Your task to perform on an android device: Empty the shopping cart on bestbuy. Search for "macbook pro 15 inch" on bestbuy, select the first entry, add it to the cart, then select checkout. Image 0: 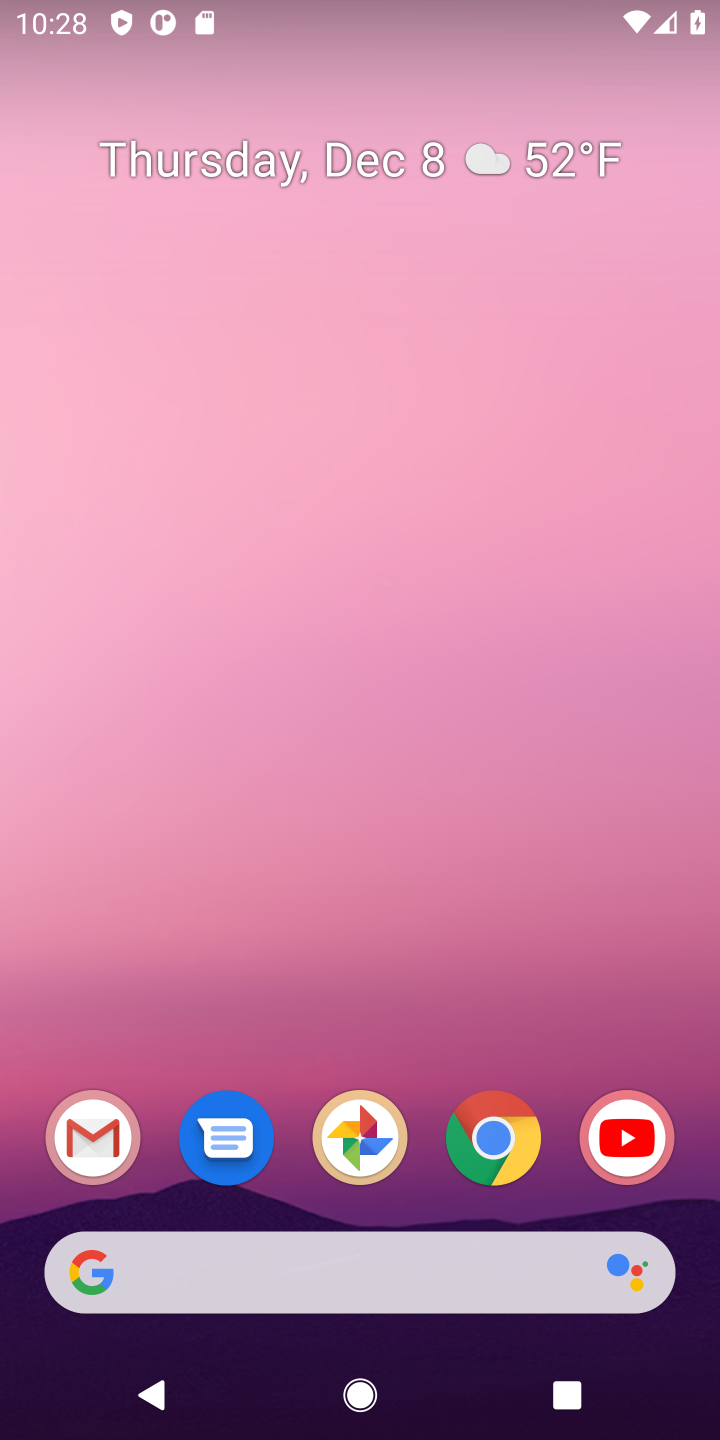
Step 0: click (466, 1139)
Your task to perform on an android device: Empty the shopping cart on bestbuy. Search for "macbook pro 15 inch" on bestbuy, select the first entry, add it to the cart, then select checkout. Image 1: 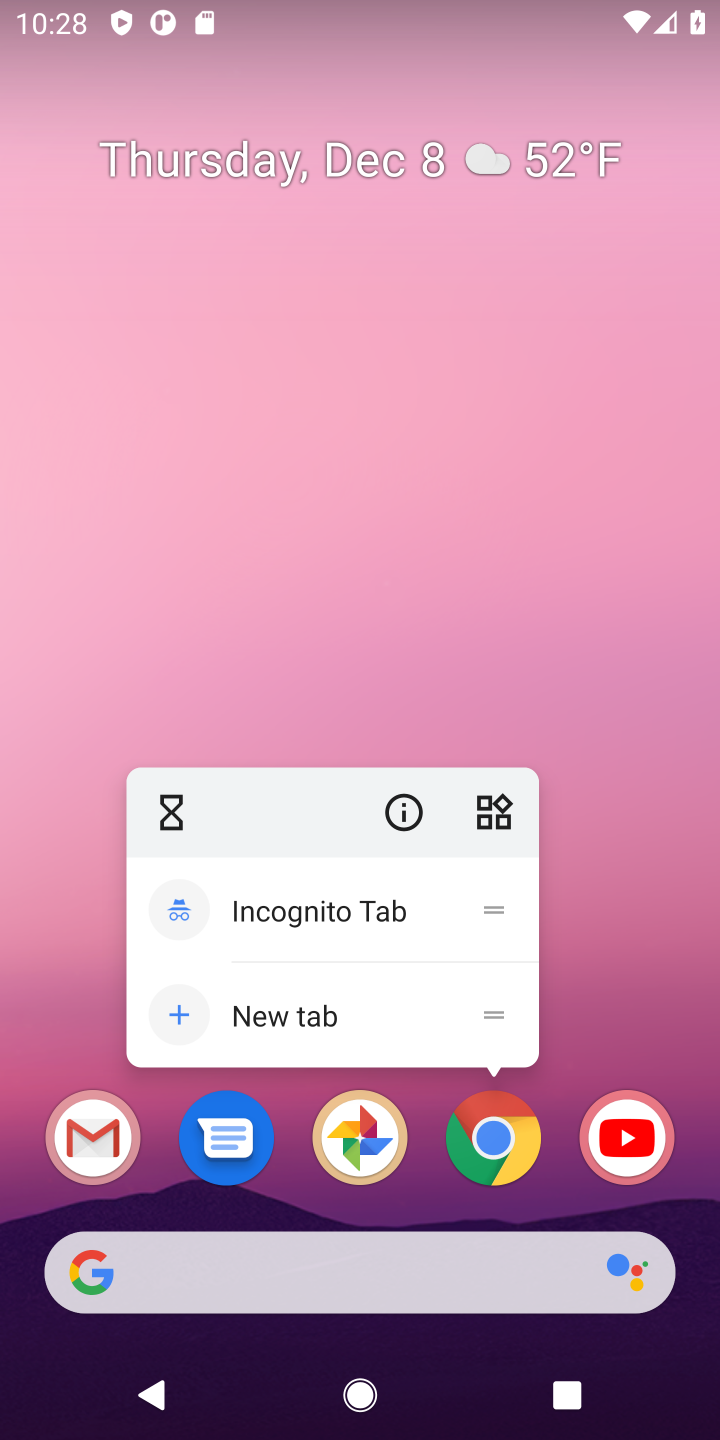
Step 1: click (499, 1159)
Your task to perform on an android device: Empty the shopping cart on bestbuy. Search for "macbook pro 15 inch" on bestbuy, select the first entry, add it to the cart, then select checkout. Image 2: 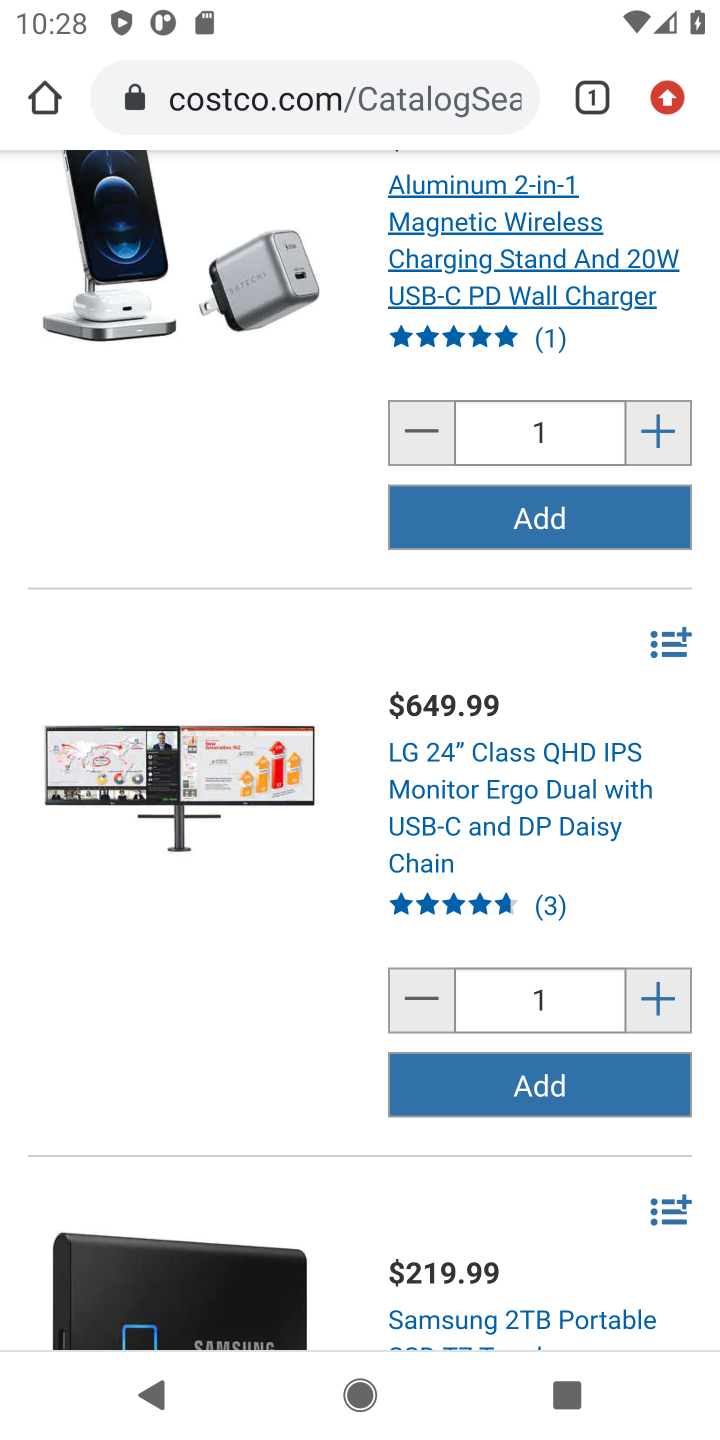
Step 2: click (431, 100)
Your task to perform on an android device: Empty the shopping cart on bestbuy. Search for "macbook pro 15 inch" on bestbuy, select the first entry, add it to the cart, then select checkout. Image 3: 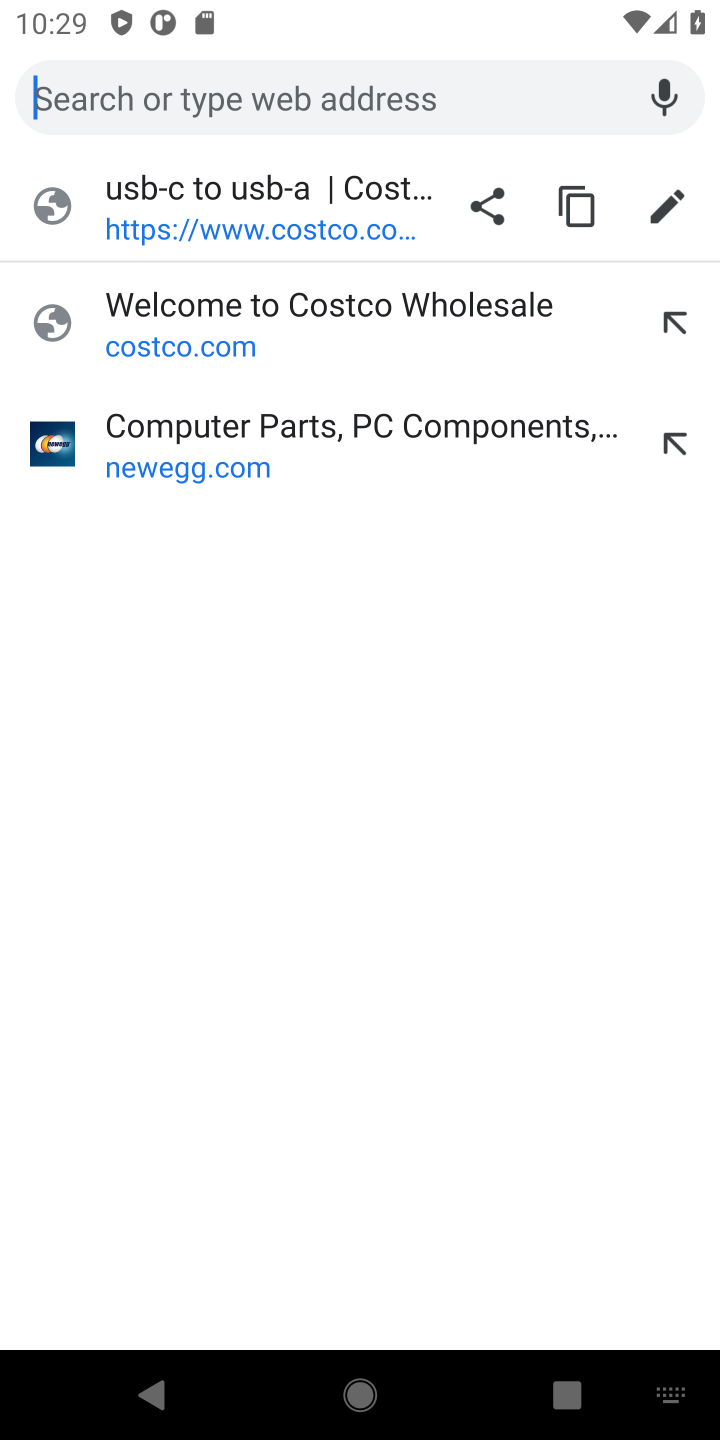
Step 3: type "bestbuy"
Your task to perform on an android device: Empty the shopping cart on bestbuy. Search for "macbook pro 15 inch" on bestbuy, select the first entry, add it to the cart, then select checkout. Image 4: 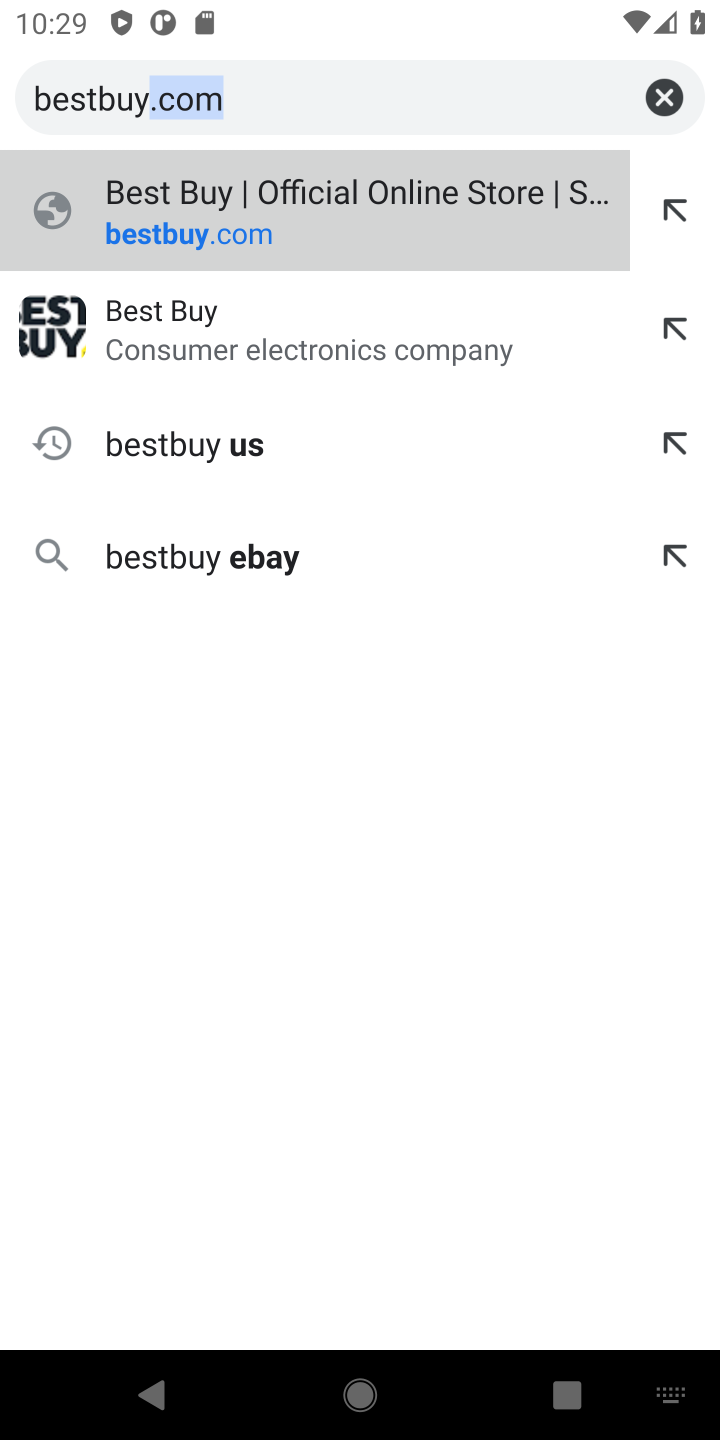
Step 4: click (480, 92)
Your task to perform on an android device: Empty the shopping cart on bestbuy. Search for "macbook pro 15 inch" on bestbuy, select the first entry, add it to the cart, then select checkout. Image 5: 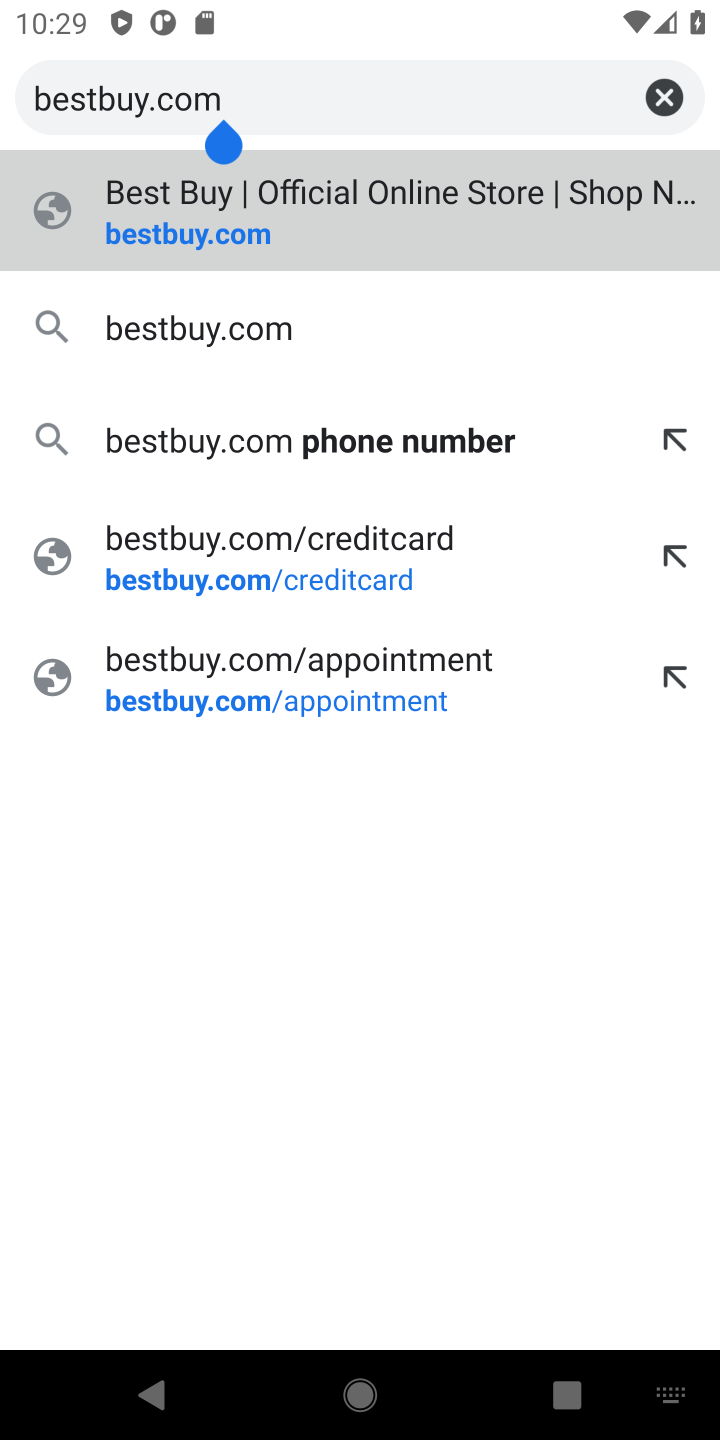
Step 5: click (241, 332)
Your task to perform on an android device: Empty the shopping cart on bestbuy. Search for "macbook pro 15 inch" on bestbuy, select the first entry, add it to the cart, then select checkout. Image 6: 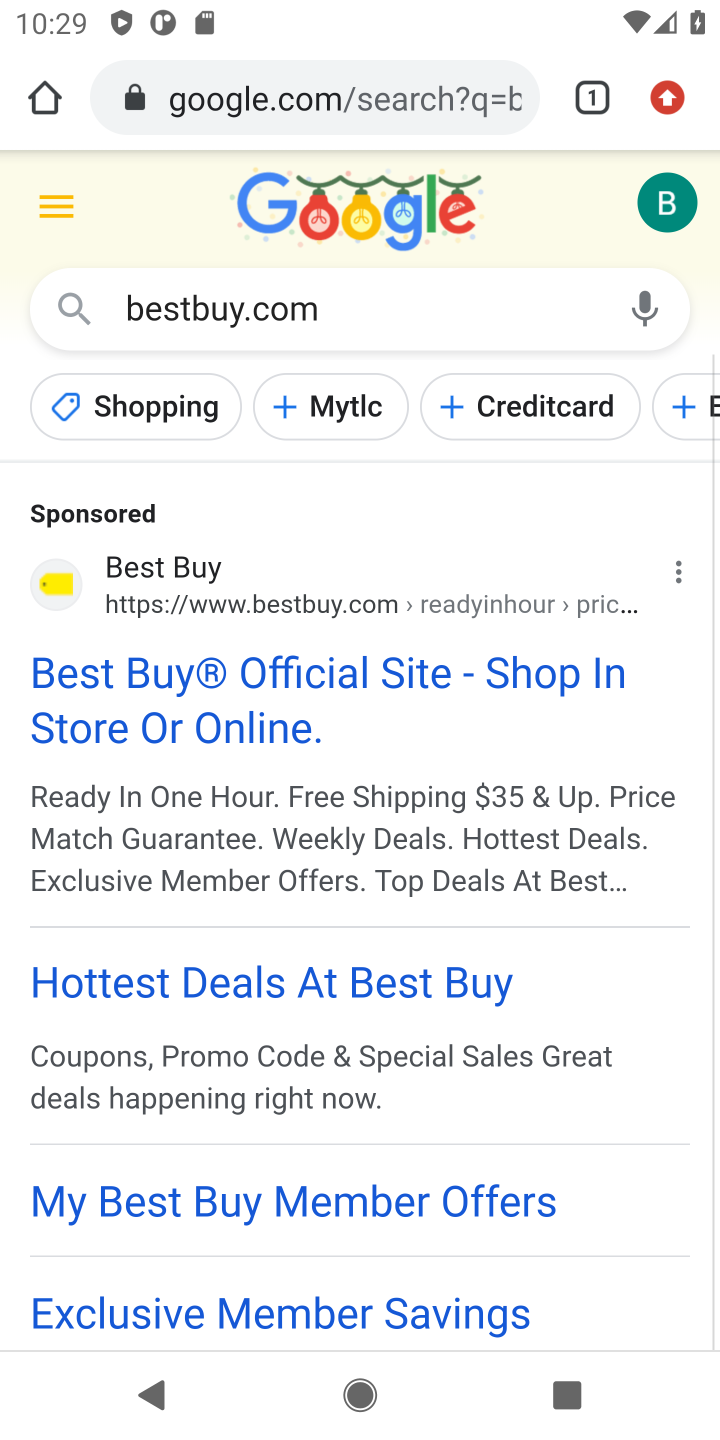
Step 6: drag from (519, 724) to (484, 367)
Your task to perform on an android device: Empty the shopping cart on bestbuy. Search for "macbook pro 15 inch" on bestbuy, select the first entry, add it to the cart, then select checkout. Image 7: 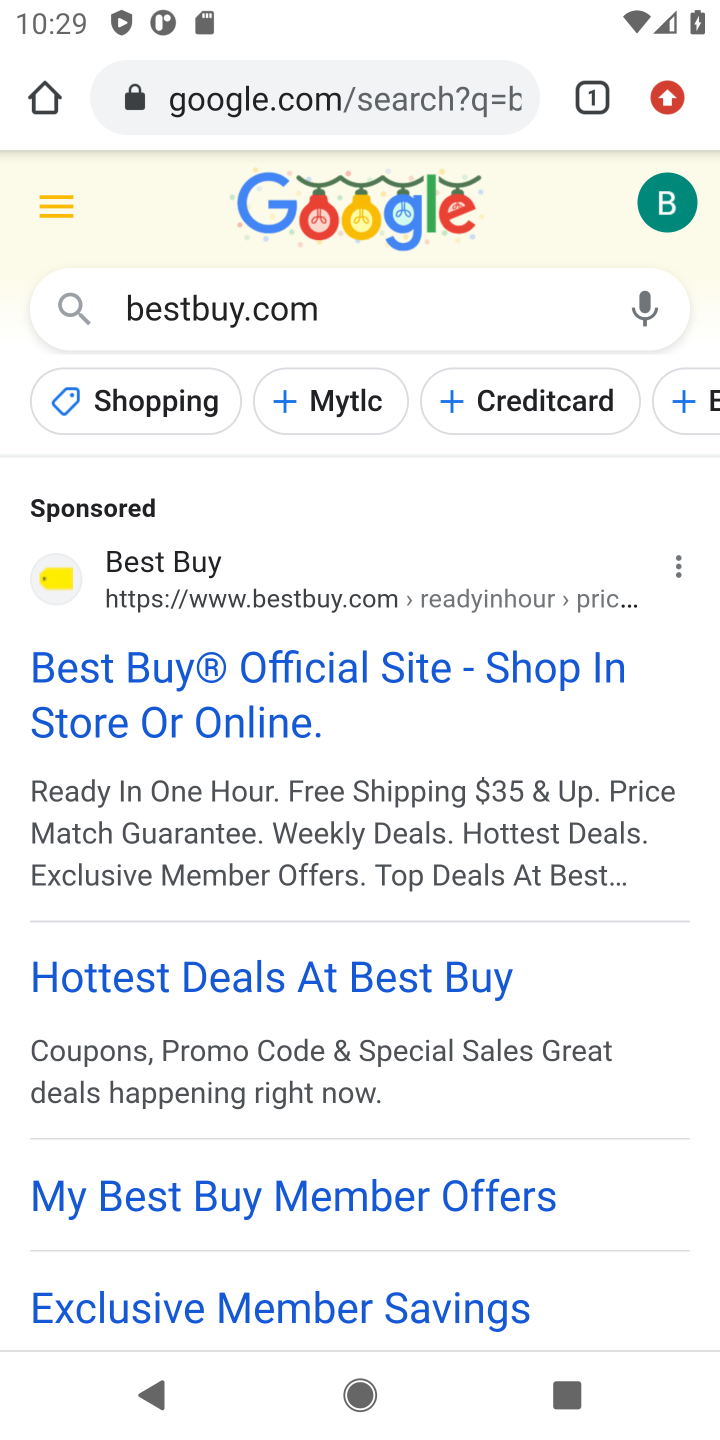
Step 7: drag from (538, 924) to (515, 413)
Your task to perform on an android device: Empty the shopping cart on bestbuy. Search for "macbook pro 15 inch" on bestbuy, select the first entry, add it to the cart, then select checkout. Image 8: 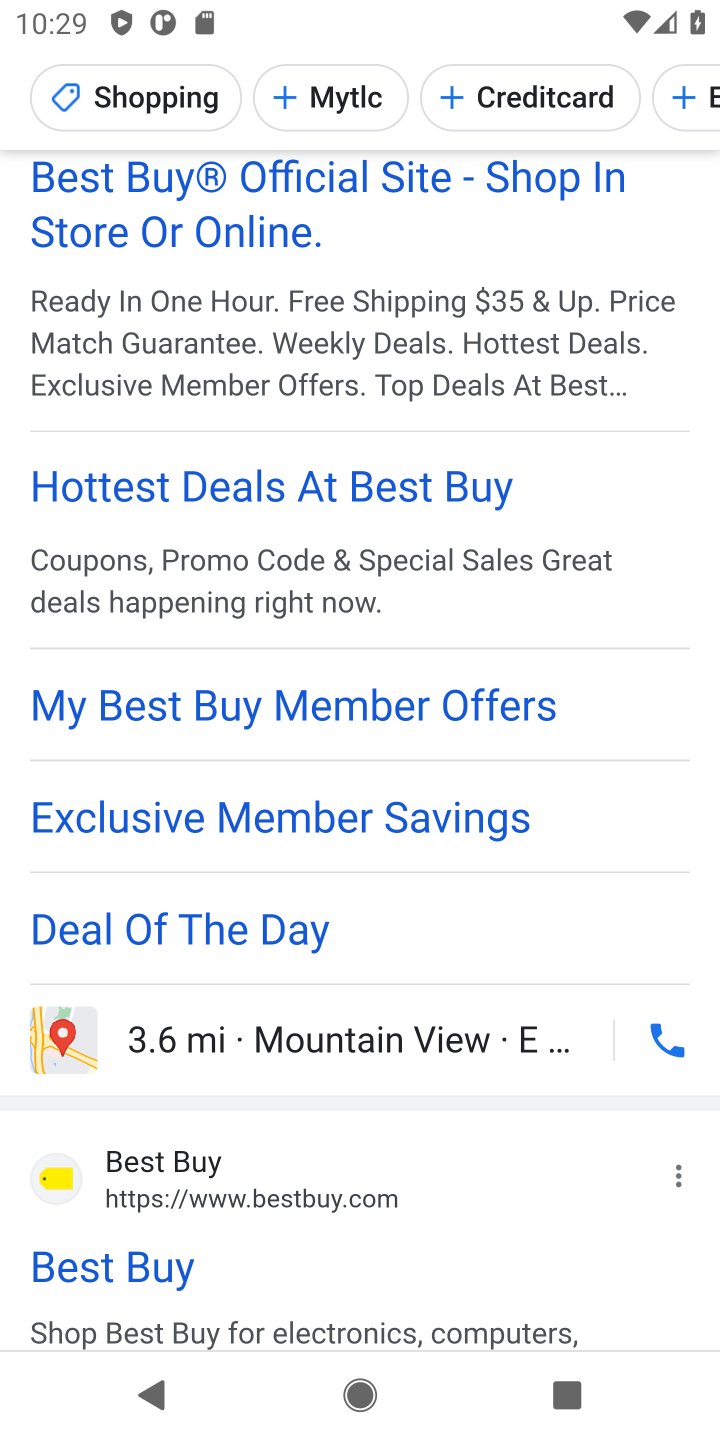
Step 8: click (345, 1191)
Your task to perform on an android device: Empty the shopping cart on bestbuy. Search for "macbook pro 15 inch" on bestbuy, select the first entry, add it to the cart, then select checkout. Image 9: 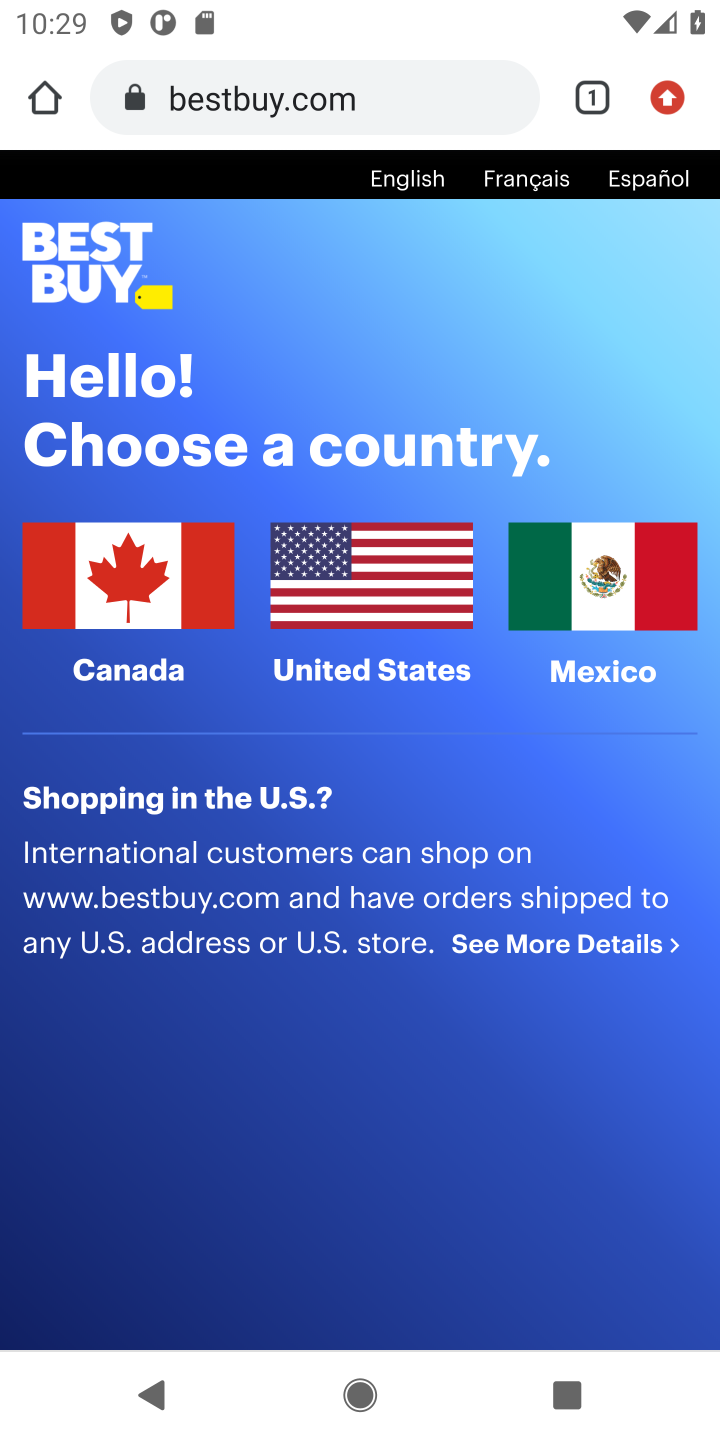
Step 9: click (359, 580)
Your task to perform on an android device: Empty the shopping cart on bestbuy. Search for "macbook pro 15 inch" on bestbuy, select the first entry, add it to the cart, then select checkout. Image 10: 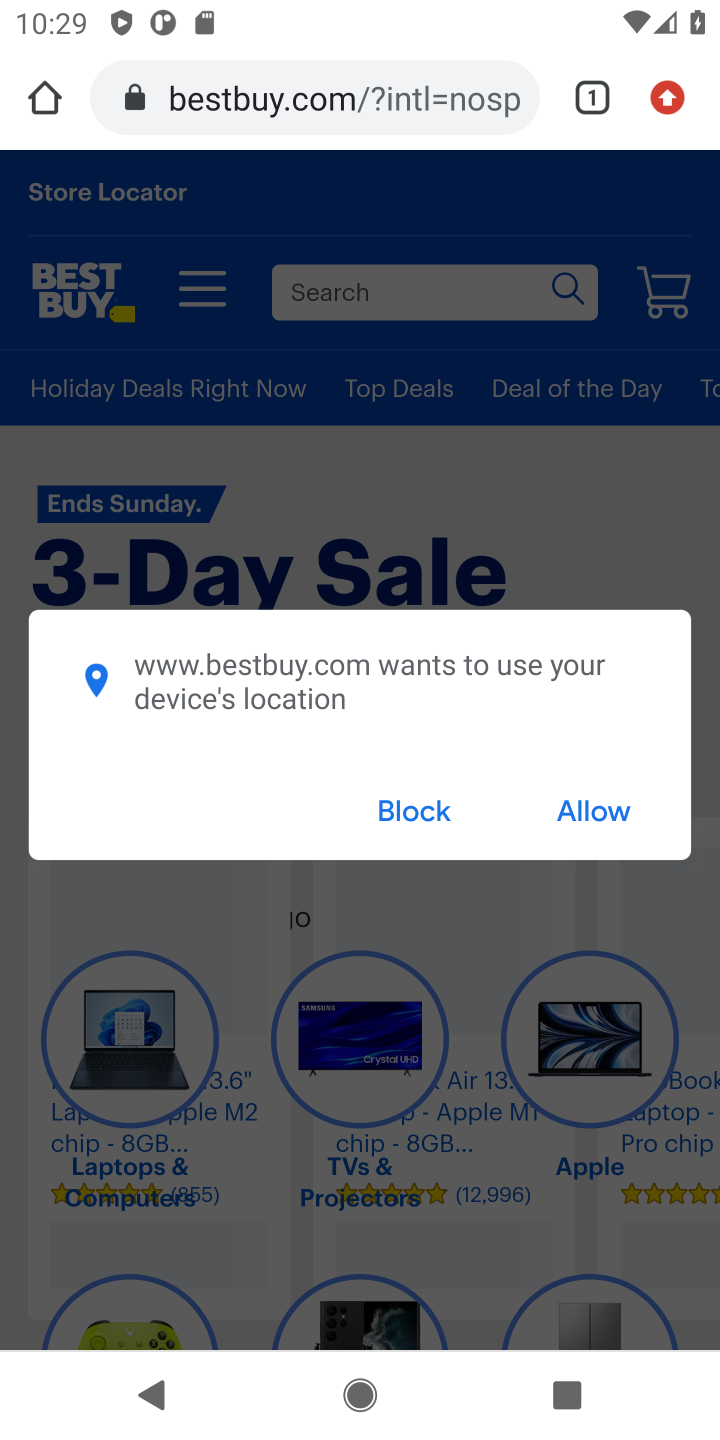
Step 10: click (417, 800)
Your task to perform on an android device: Empty the shopping cart on bestbuy. Search for "macbook pro 15 inch" on bestbuy, select the first entry, add it to the cart, then select checkout. Image 11: 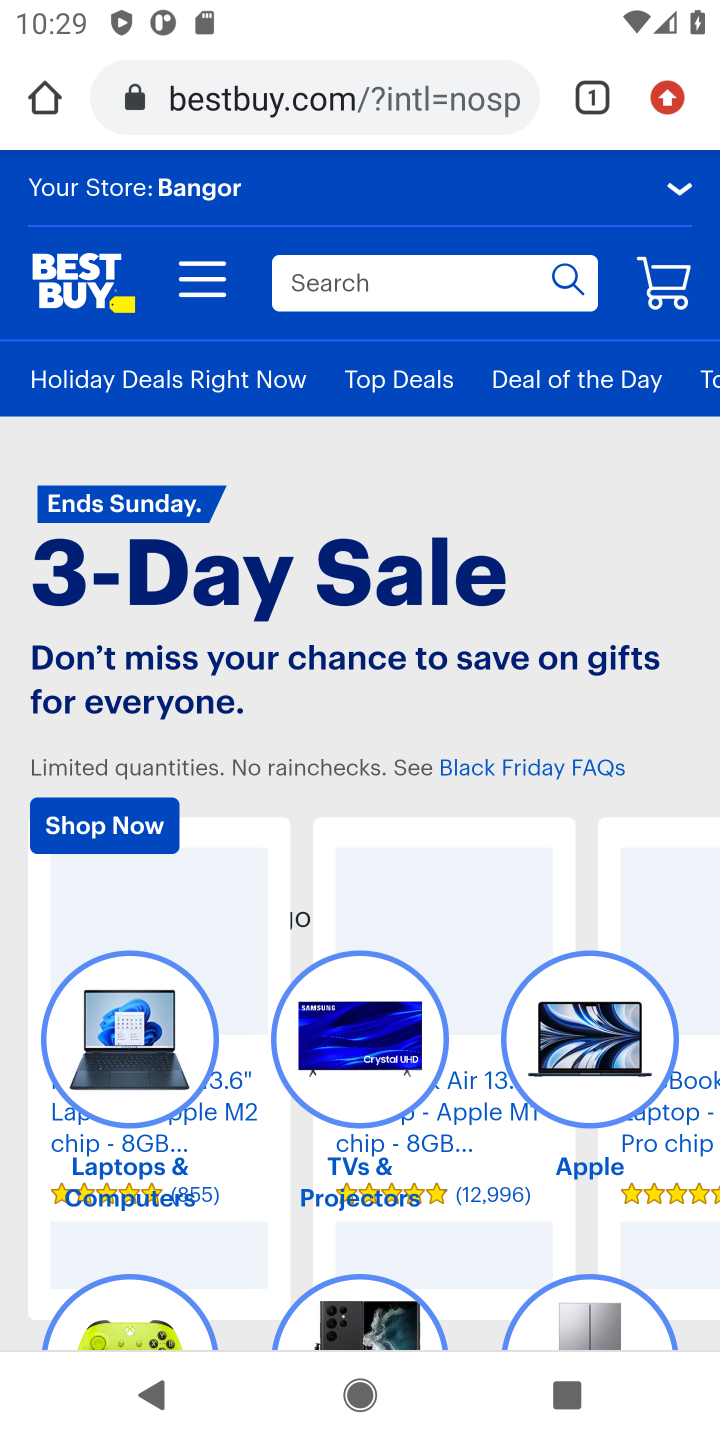
Step 11: click (669, 272)
Your task to perform on an android device: Empty the shopping cart on bestbuy. Search for "macbook pro 15 inch" on bestbuy, select the first entry, add it to the cart, then select checkout. Image 12: 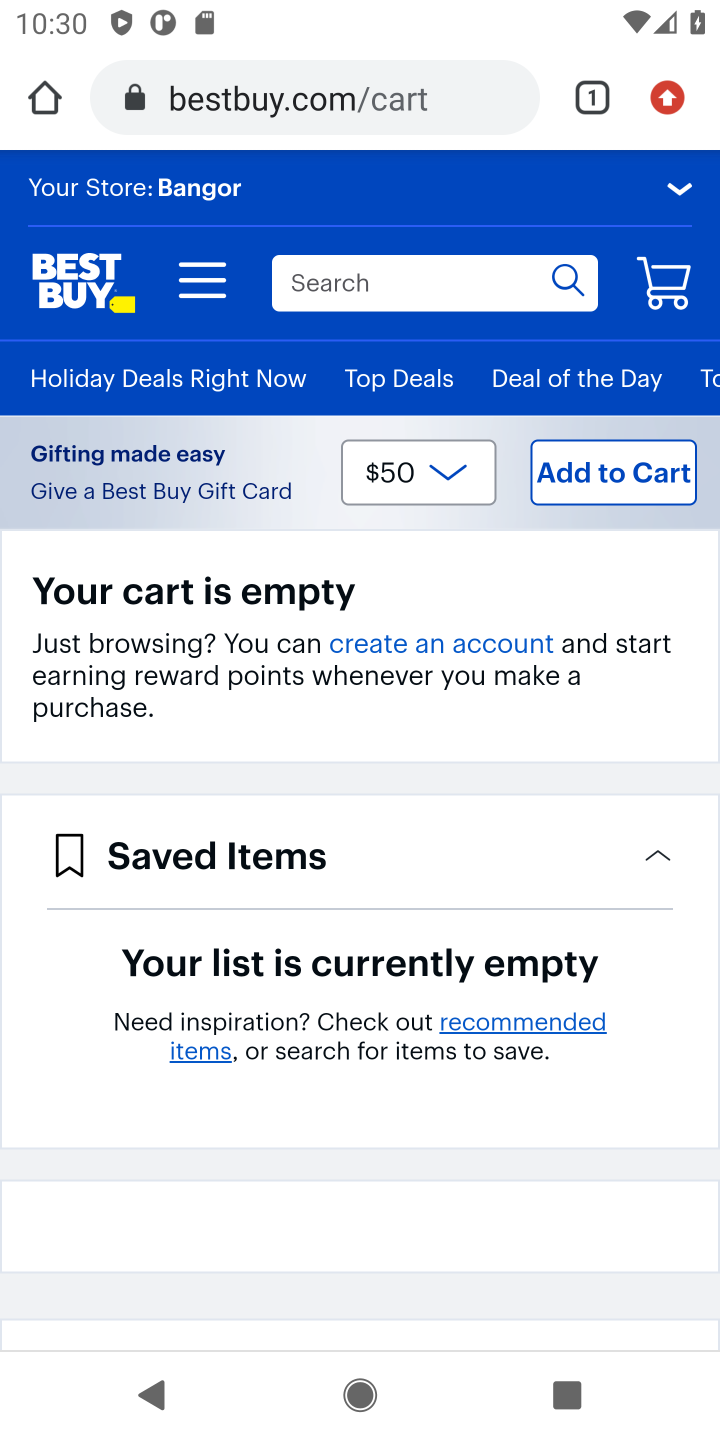
Step 12: click (514, 289)
Your task to perform on an android device: Empty the shopping cart on bestbuy. Search for "macbook pro 15 inch" on bestbuy, select the first entry, add it to the cart, then select checkout. Image 13: 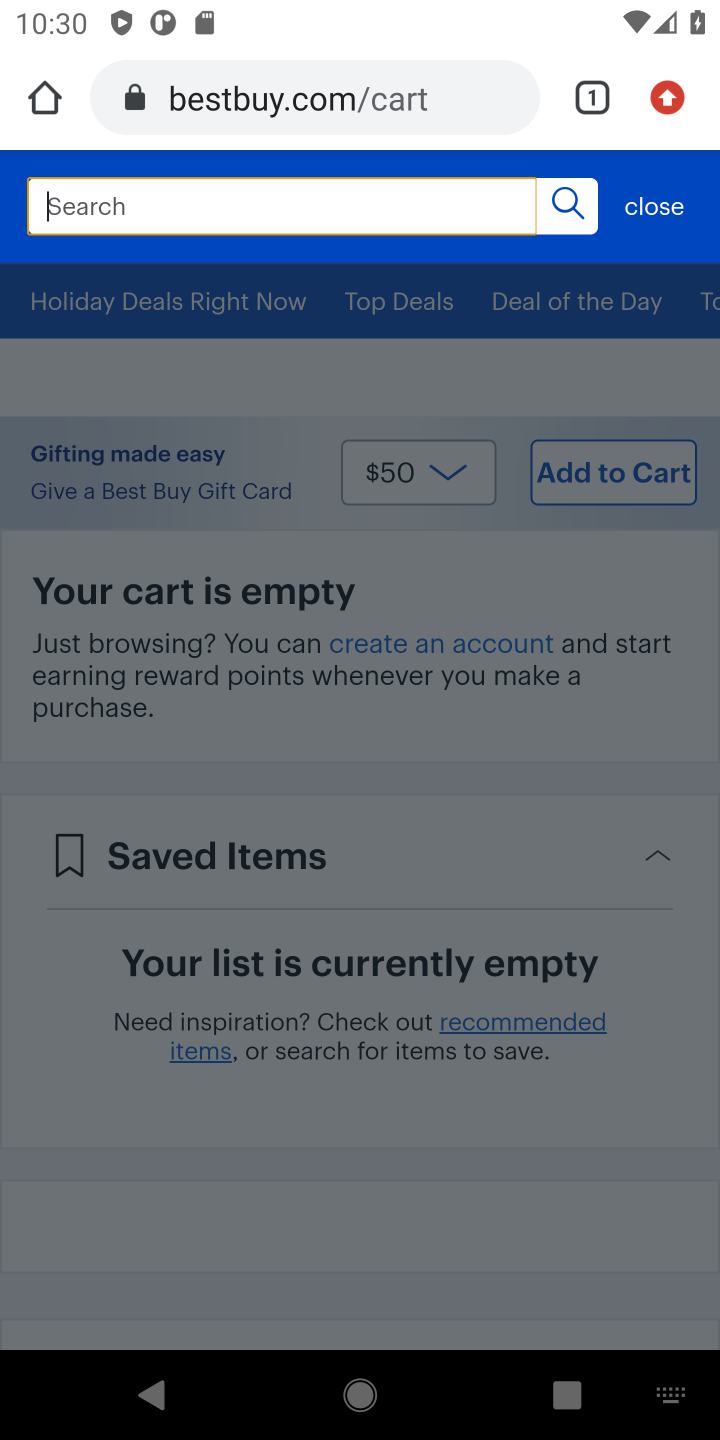
Step 13: type "macbook pro 15 inch"
Your task to perform on an android device: Empty the shopping cart on bestbuy. Search for "macbook pro 15 inch" on bestbuy, select the first entry, add it to the cart, then select checkout. Image 14: 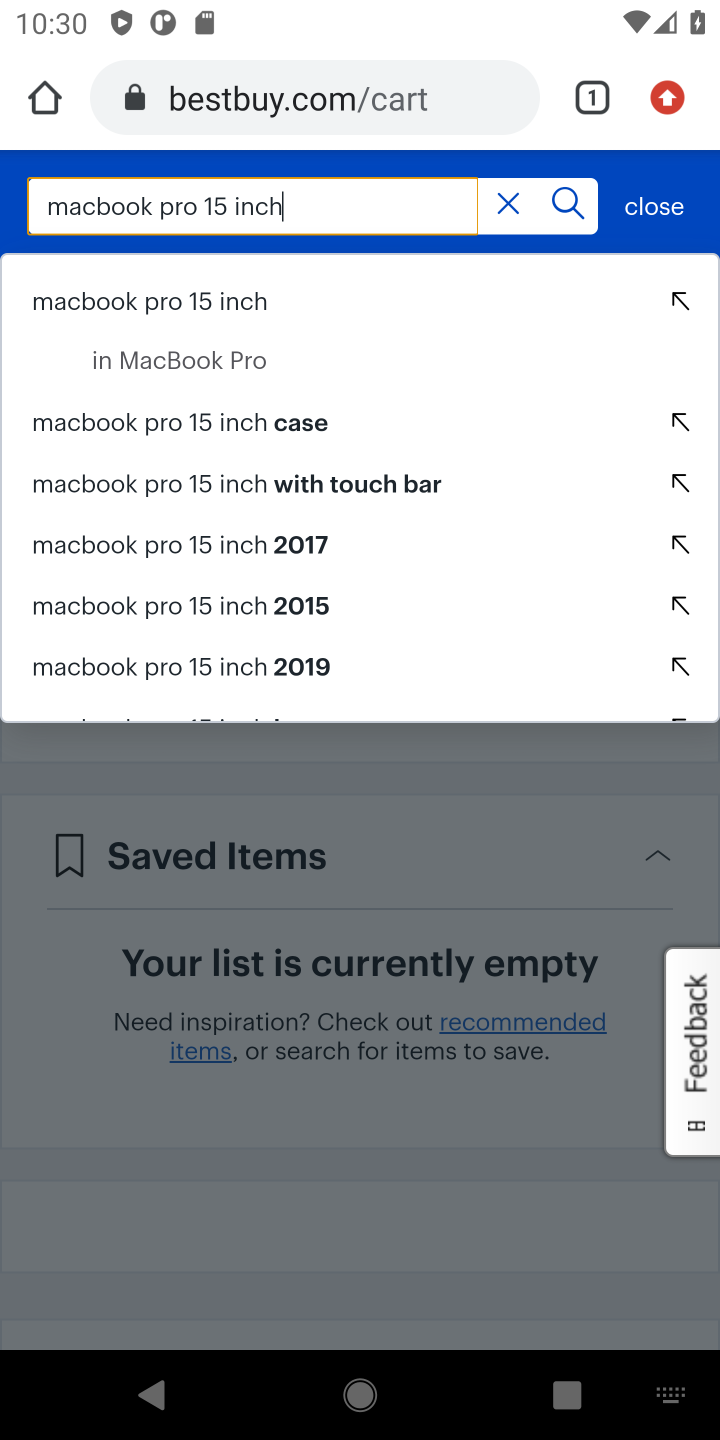
Step 14: click (216, 293)
Your task to perform on an android device: Empty the shopping cart on bestbuy. Search for "macbook pro 15 inch" on bestbuy, select the first entry, add it to the cart, then select checkout. Image 15: 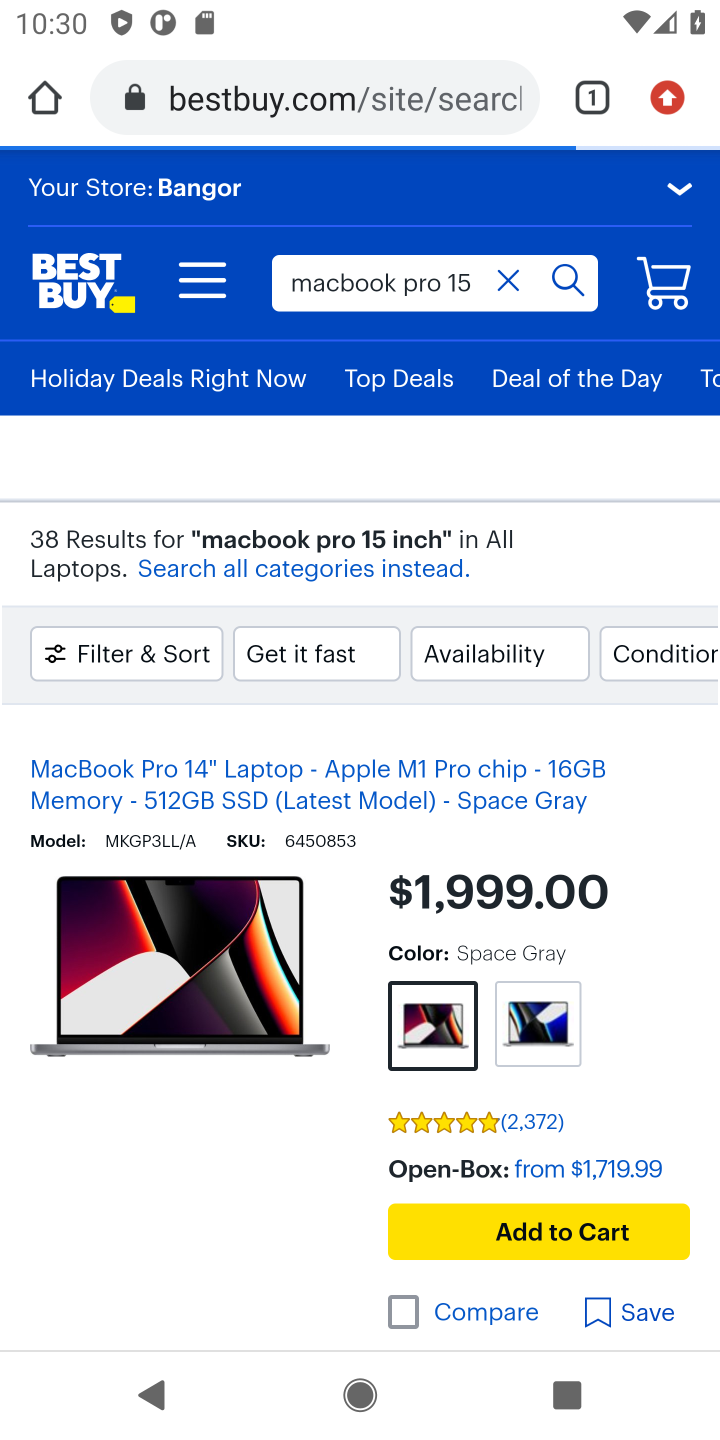
Step 15: drag from (264, 1104) to (194, 266)
Your task to perform on an android device: Empty the shopping cart on bestbuy. Search for "macbook pro 15 inch" on bestbuy, select the first entry, add it to the cart, then select checkout. Image 16: 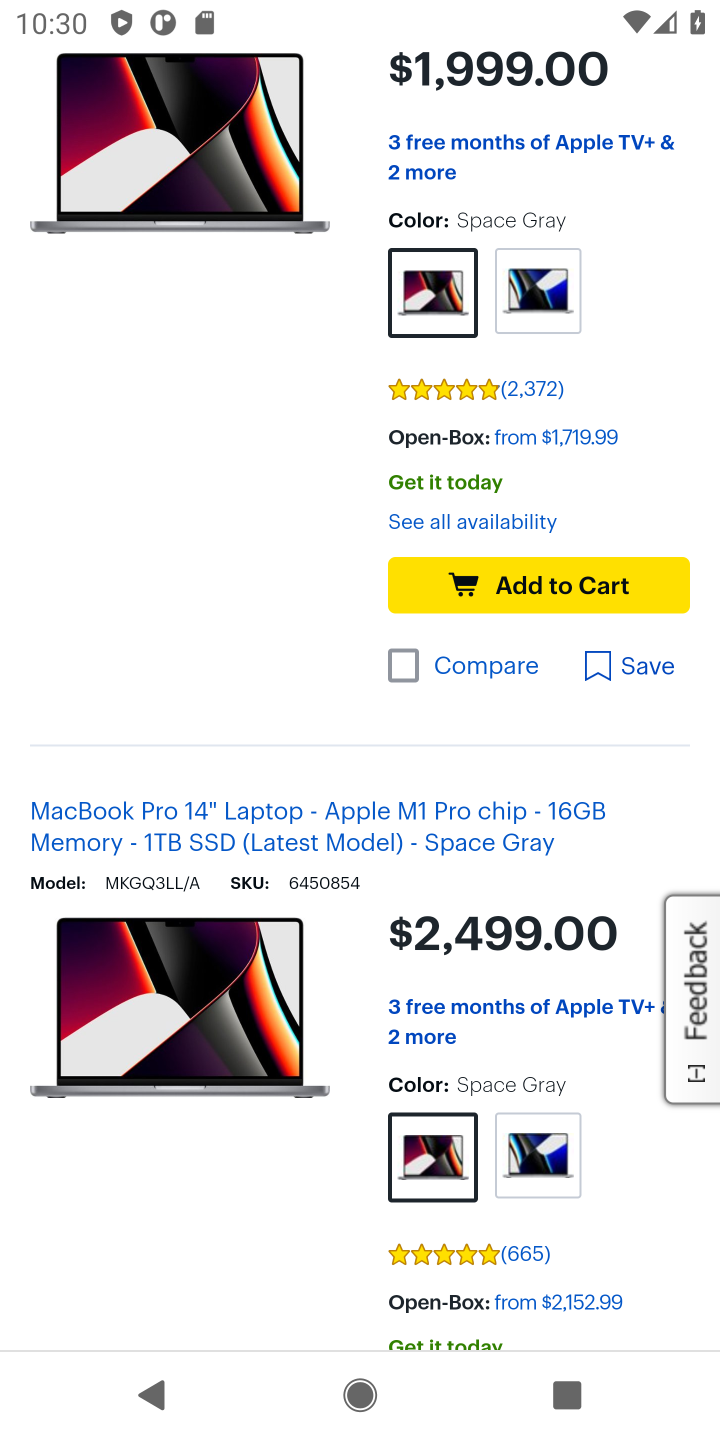
Step 16: drag from (291, 836) to (150, 218)
Your task to perform on an android device: Empty the shopping cart on bestbuy. Search for "macbook pro 15 inch" on bestbuy, select the first entry, add it to the cart, then select checkout. Image 17: 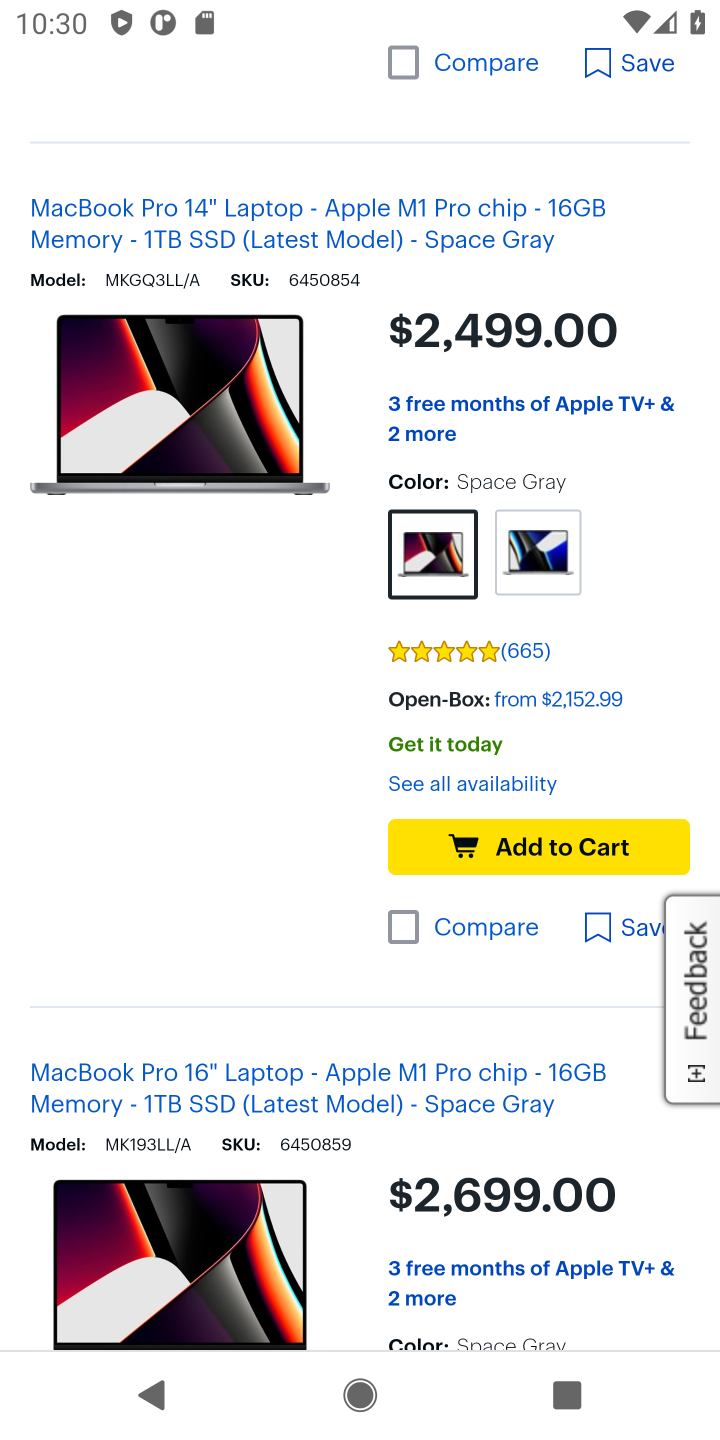
Step 17: drag from (245, 1126) to (123, 204)
Your task to perform on an android device: Empty the shopping cart on bestbuy. Search for "macbook pro 15 inch" on bestbuy, select the first entry, add it to the cart, then select checkout. Image 18: 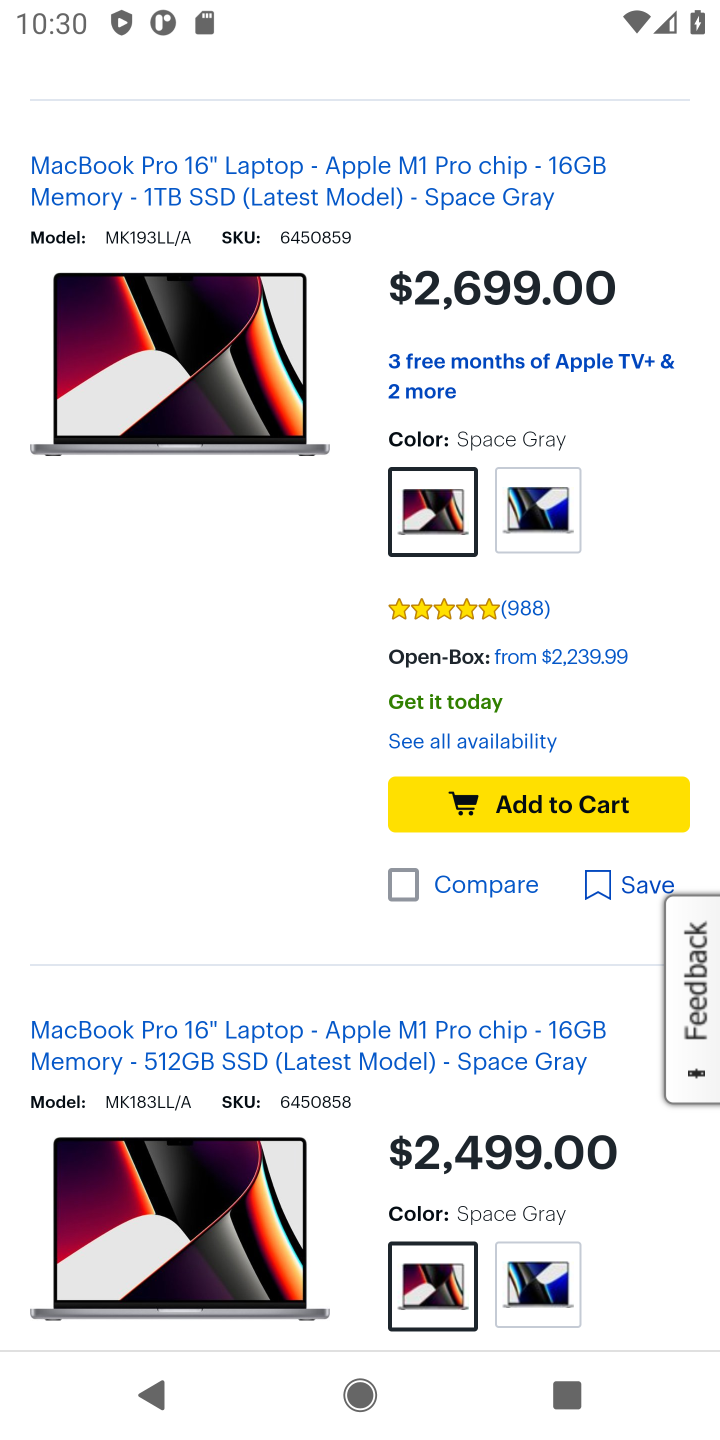
Step 18: drag from (242, 1028) to (250, 50)
Your task to perform on an android device: Empty the shopping cart on bestbuy. Search for "macbook pro 15 inch" on bestbuy, select the first entry, add it to the cart, then select checkout. Image 19: 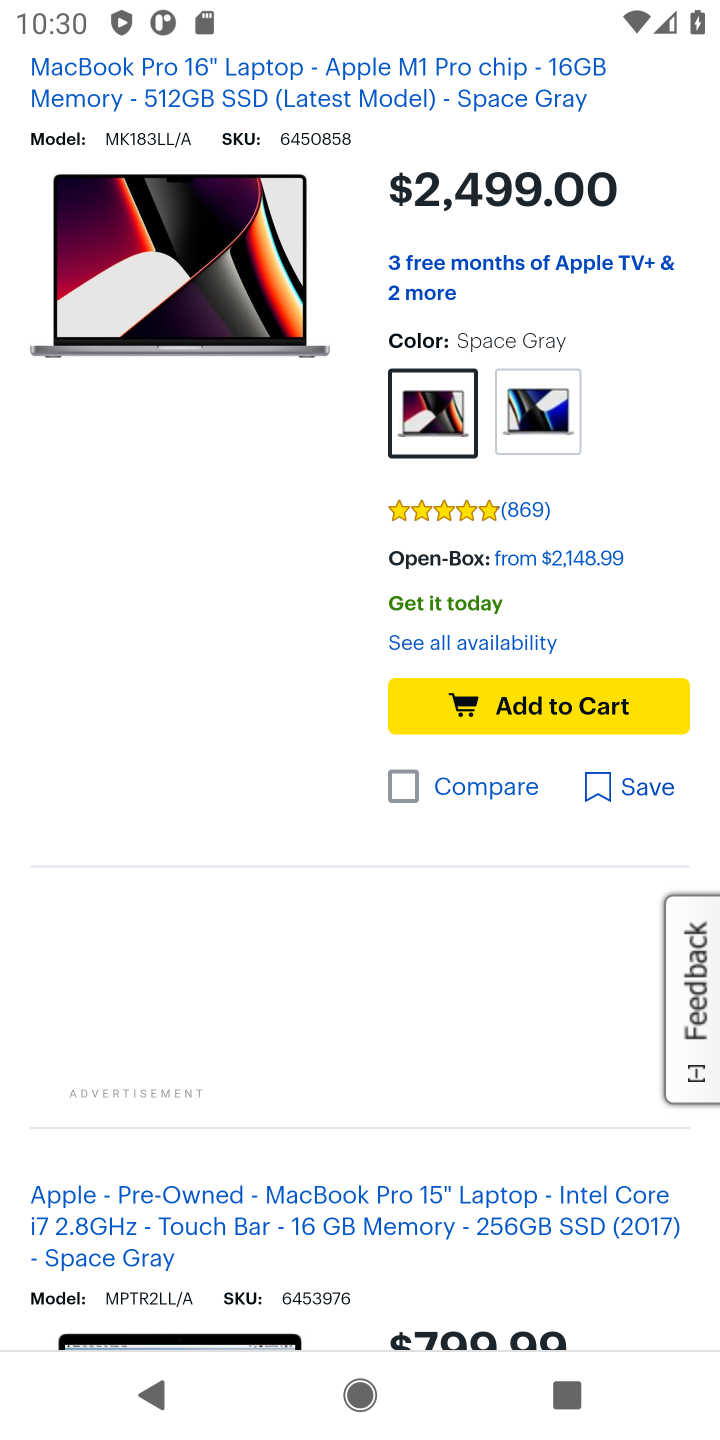
Step 19: drag from (256, 1205) to (329, 470)
Your task to perform on an android device: Empty the shopping cart on bestbuy. Search for "macbook pro 15 inch" on bestbuy, select the first entry, add it to the cart, then select checkout. Image 20: 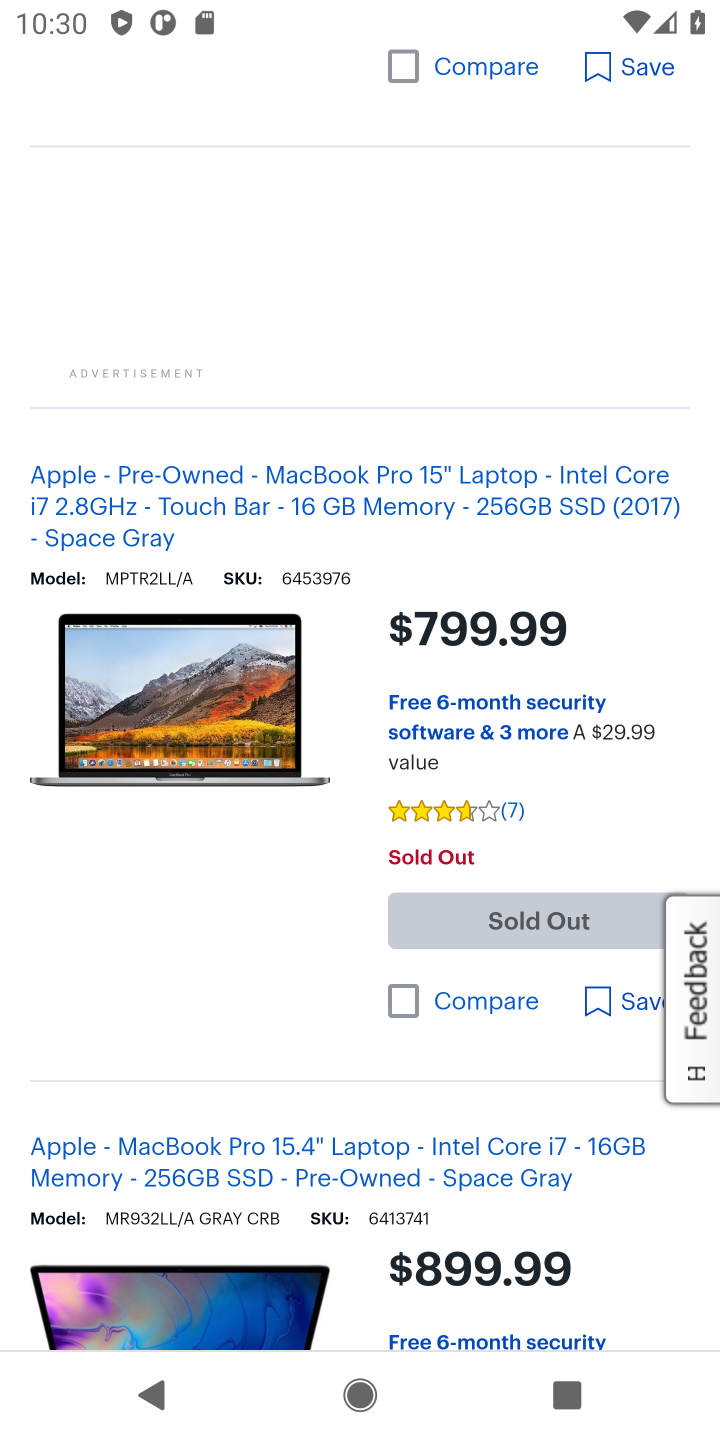
Step 20: click (208, 694)
Your task to perform on an android device: Empty the shopping cart on bestbuy. Search for "macbook pro 15 inch" on bestbuy, select the first entry, add it to the cart, then select checkout. Image 21: 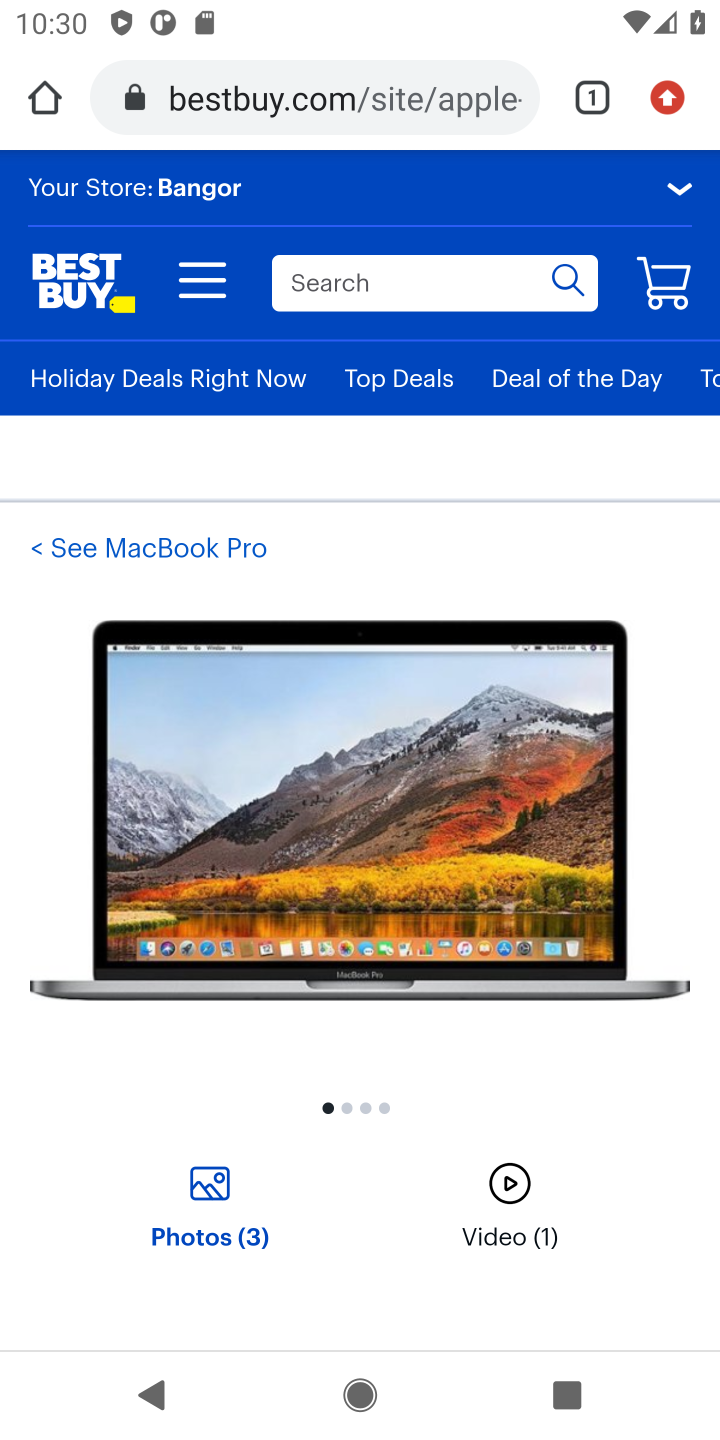
Step 21: drag from (494, 781) to (440, 7)
Your task to perform on an android device: Empty the shopping cart on bestbuy. Search for "macbook pro 15 inch" on bestbuy, select the first entry, add it to the cart, then select checkout. Image 22: 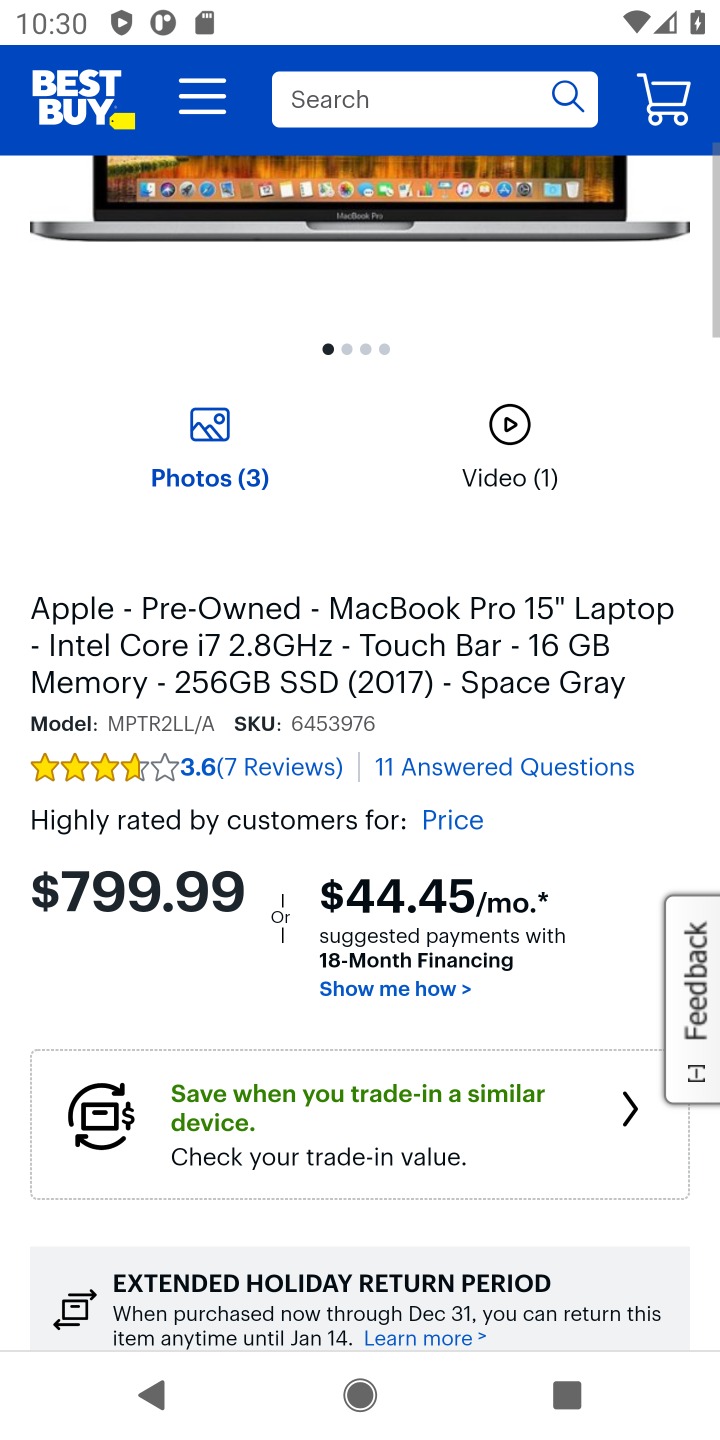
Step 22: drag from (367, 894) to (352, 32)
Your task to perform on an android device: Empty the shopping cart on bestbuy. Search for "macbook pro 15 inch" on bestbuy, select the first entry, add it to the cart, then select checkout. Image 23: 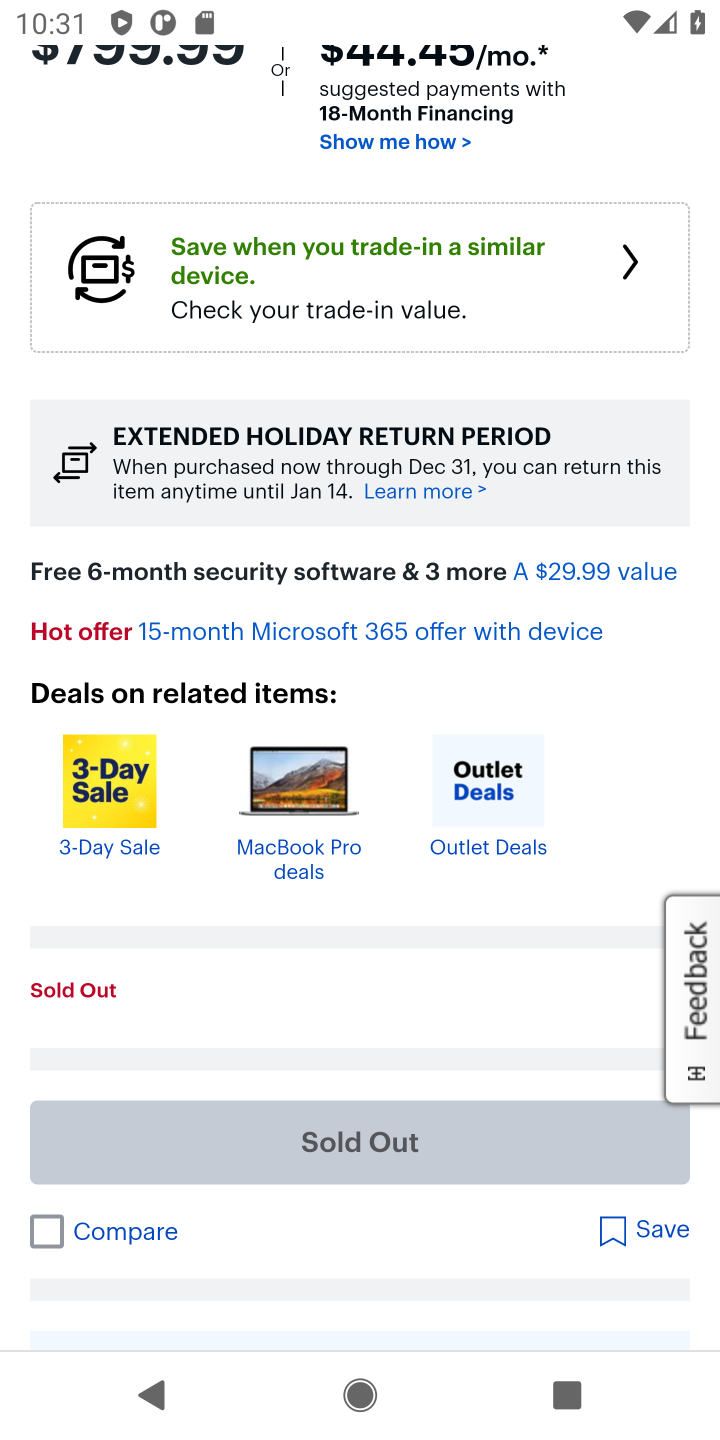
Step 23: press back button
Your task to perform on an android device: Empty the shopping cart on bestbuy. Search for "macbook pro 15 inch" on bestbuy, select the first entry, add it to the cart, then select checkout. Image 24: 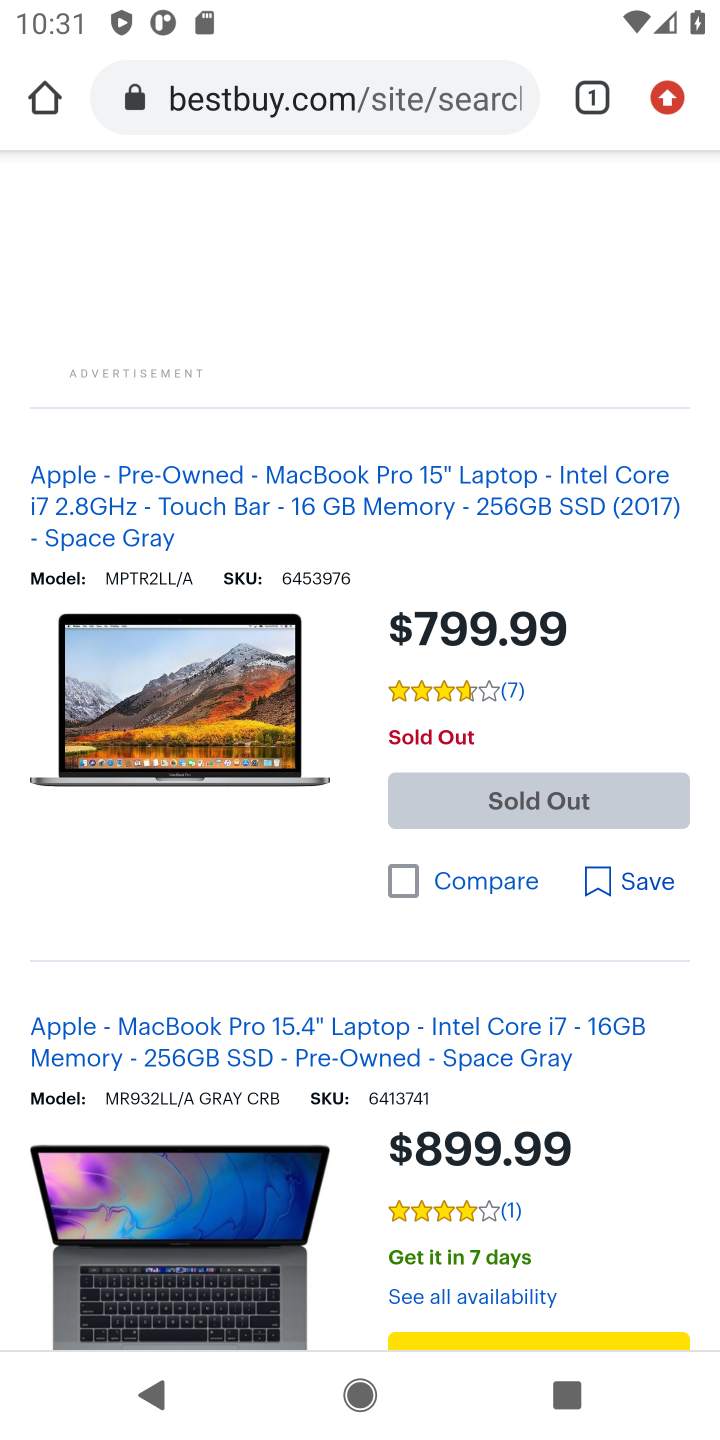
Step 24: drag from (345, 1034) to (367, 539)
Your task to perform on an android device: Empty the shopping cart on bestbuy. Search for "macbook pro 15 inch" on bestbuy, select the first entry, add it to the cart, then select checkout. Image 25: 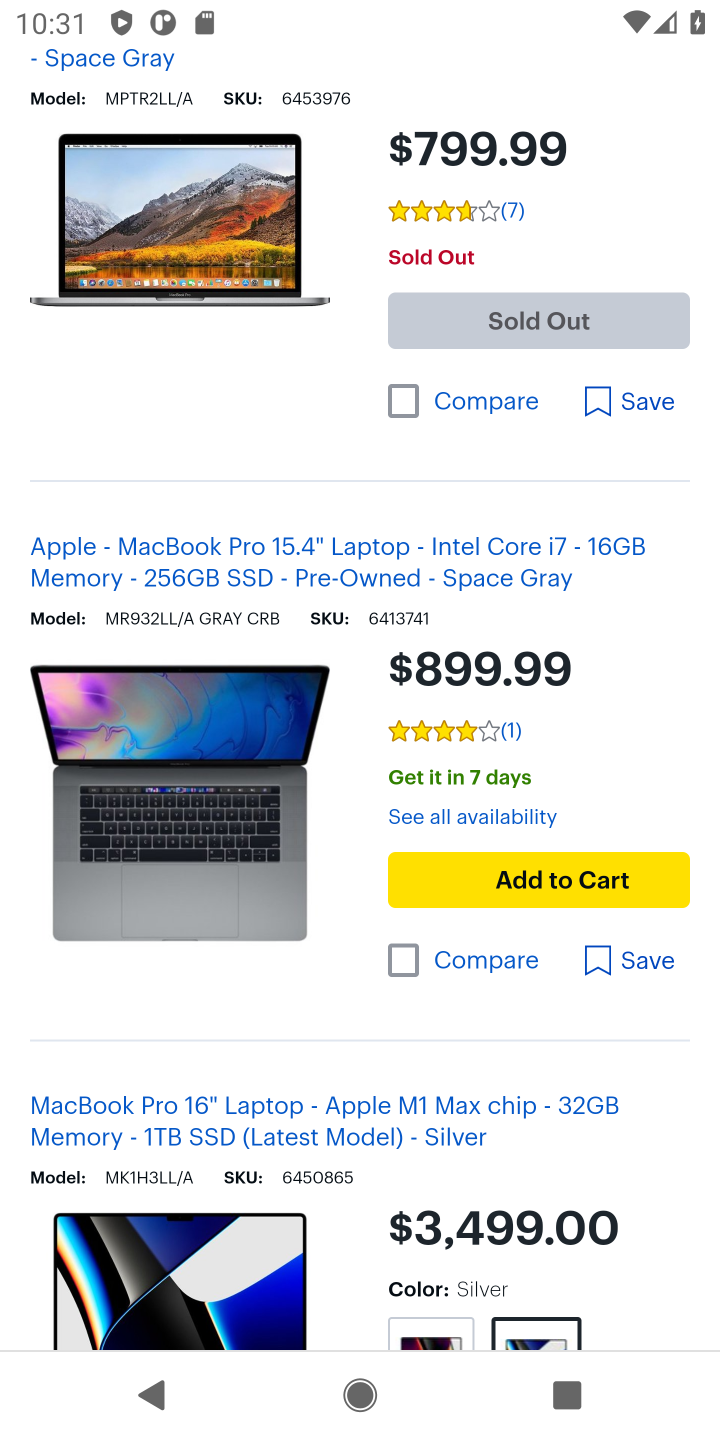
Step 25: click (172, 770)
Your task to perform on an android device: Empty the shopping cart on bestbuy. Search for "macbook pro 15 inch" on bestbuy, select the first entry, add it to the cart, then select checkout. Image 26: 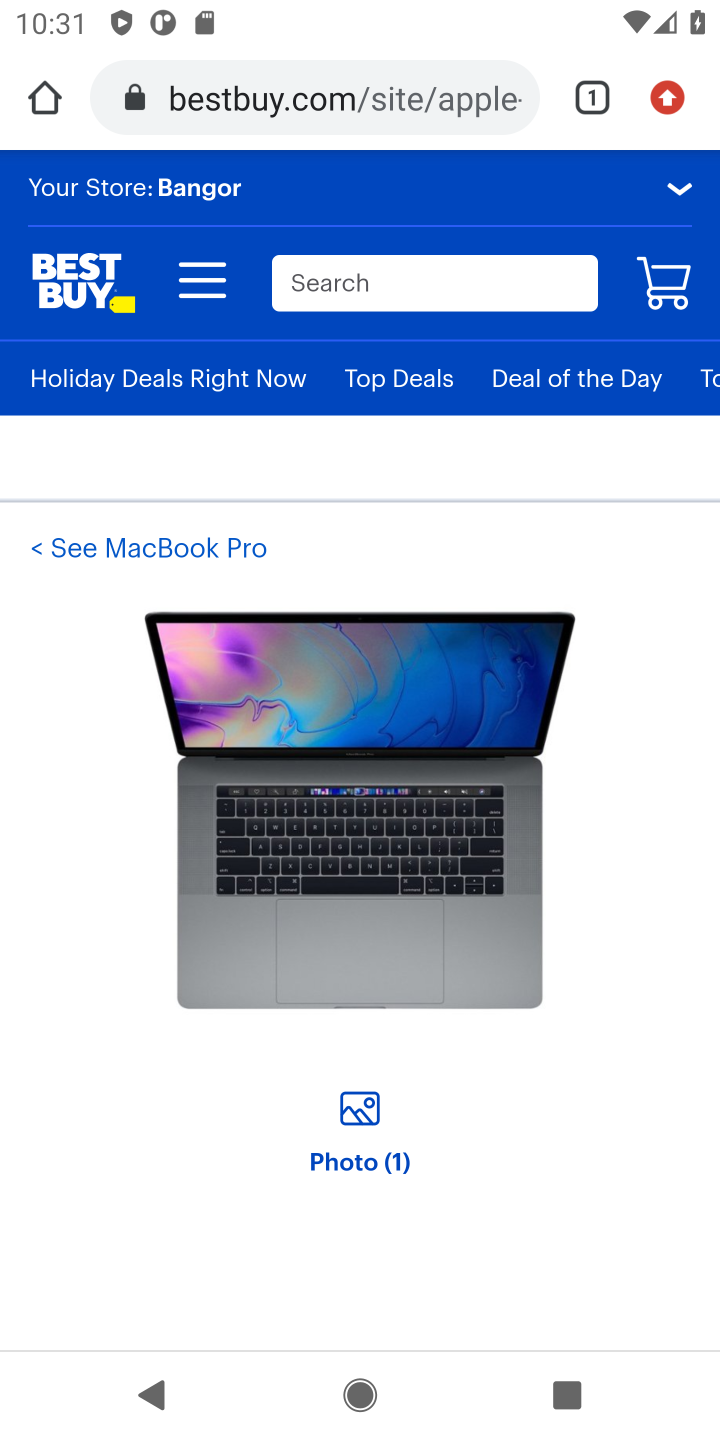
Step 26: drag from (495, 930) to (446, 165)
Your task to perform on an android device: Empty the shopping cart on bestbuy. Search for "macbook pro 15 inch" on bestbuy, select the first entry, add it to the cart, then select checkout. Image 27: 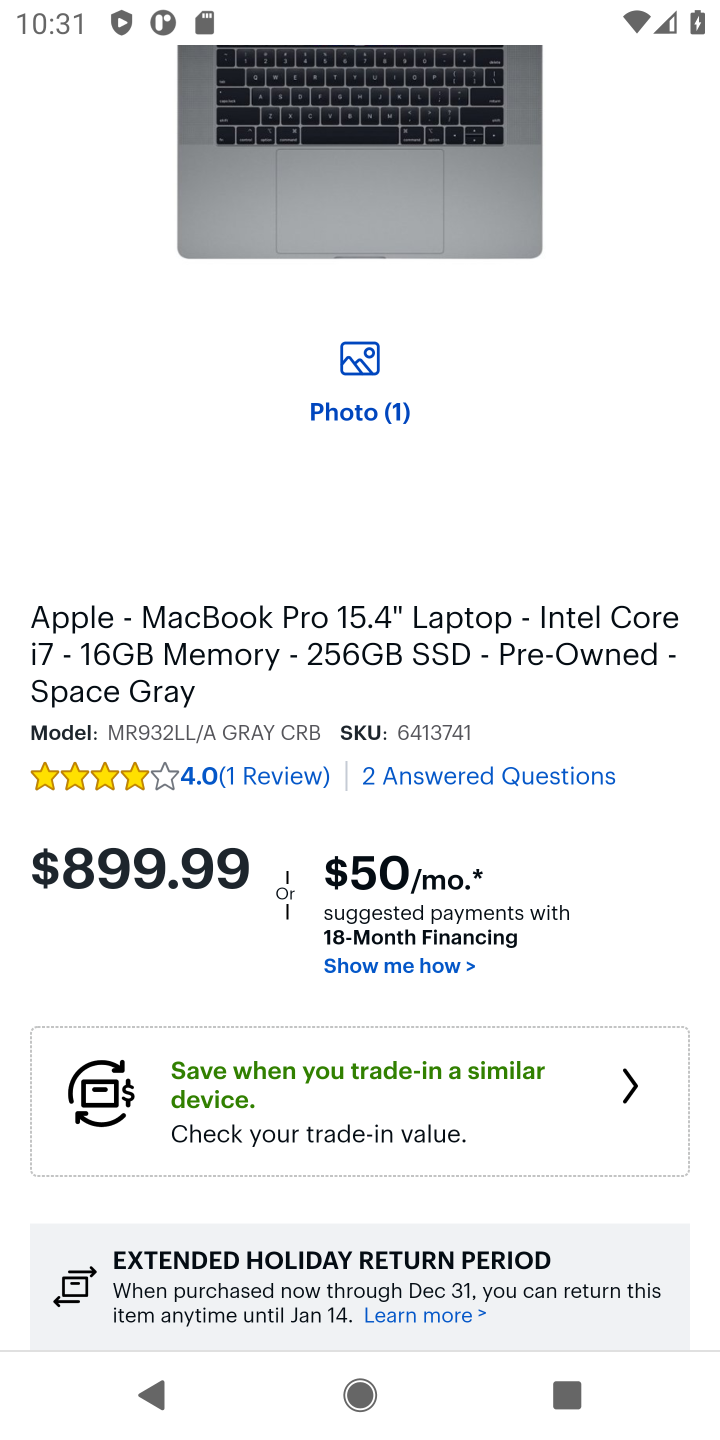
Step 27: drag from (513, 791) to (450, 462)
Your task to perform on an android device: Empty the shopping cart on bestbuy. Search for "macbook pro 15 inch" on bestbuy, select the first entry, add it to the cart, then select checkout. Image 28: 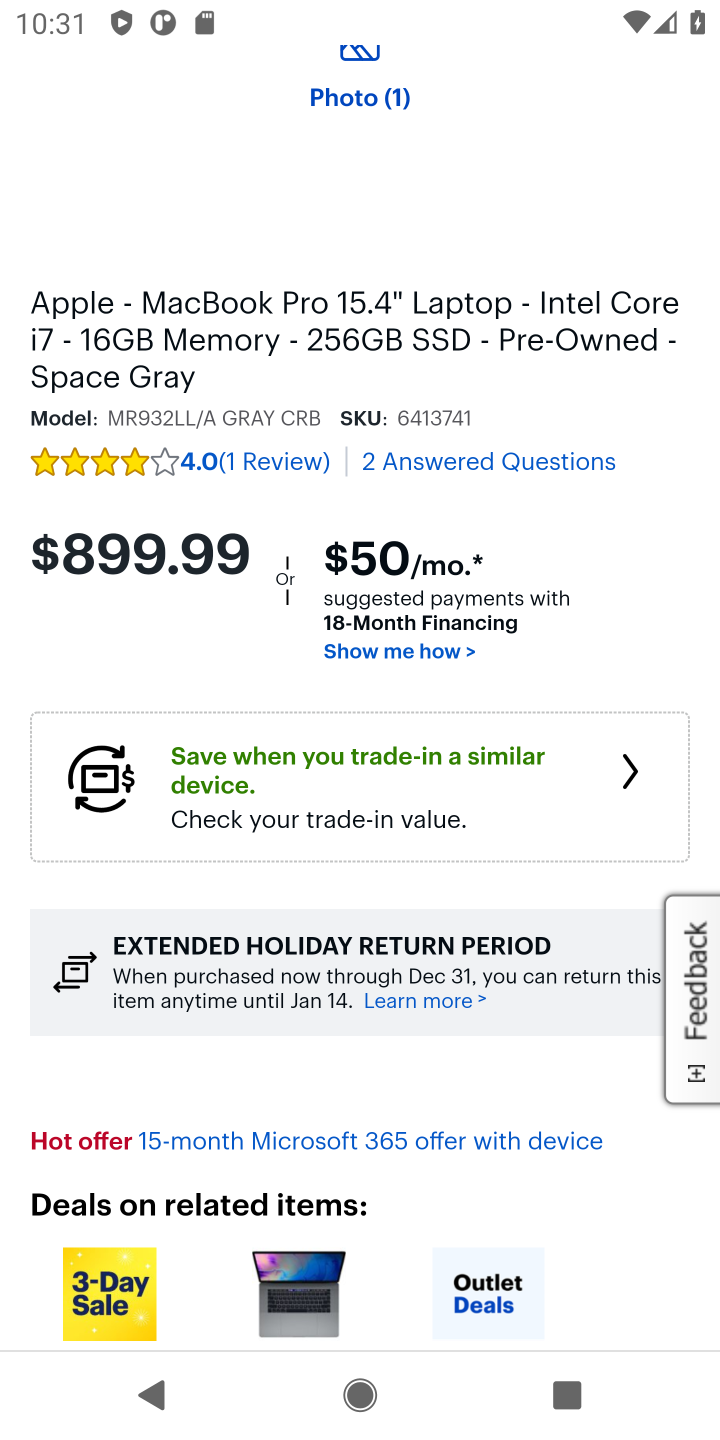
Step 28: drag from (536, 1180) to (425, 485)
Your task to perform on an android device: Empty the shopping cart on bestbuy. Search for "macbook pro 15 inch" on bestbuy, select the first entry, add it to the cart, then select checkout. Image 29: 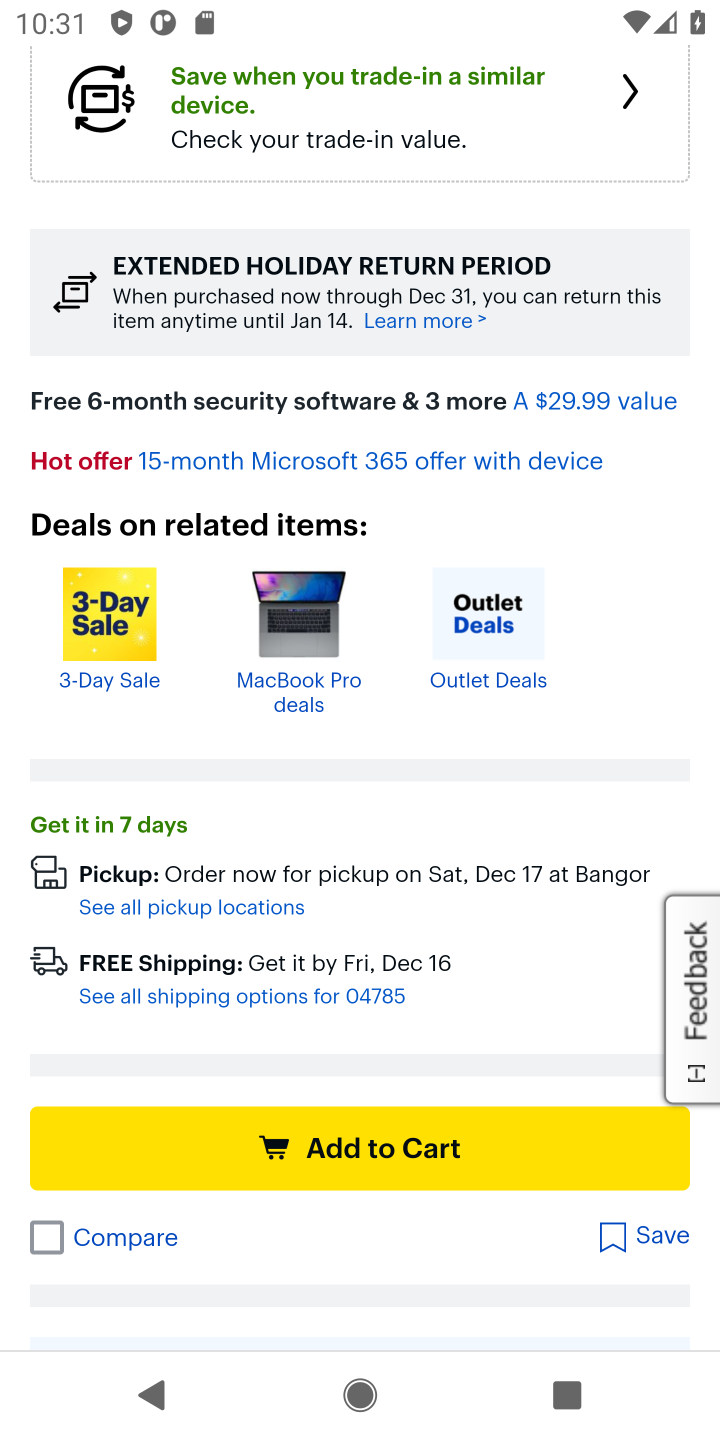
Step 29: click (369, 1146)
Your task to perform on an android device: Empty the shopping cart on bestbuy. Search for "macbook pro 15 inch" on bestbuy, select the first entry, add it to the cart, then select checkout. Image 30: 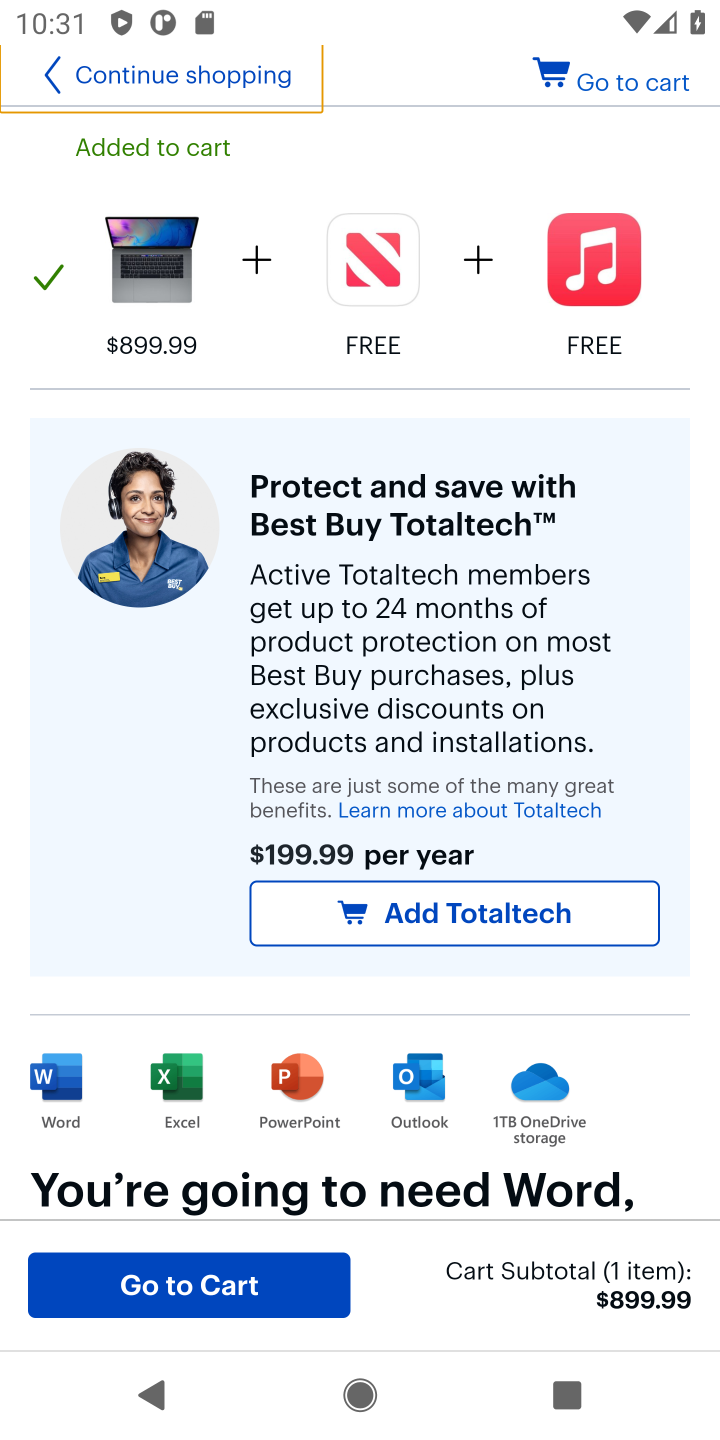
Step 30: click (247, 1292)
Your task to perform on an android device: Empty the shopping cart on bestbuy. Search for "macbook pro 15 inch" on bestbuy, select the first entry, add it to the cart, then select checkout. Image 31: 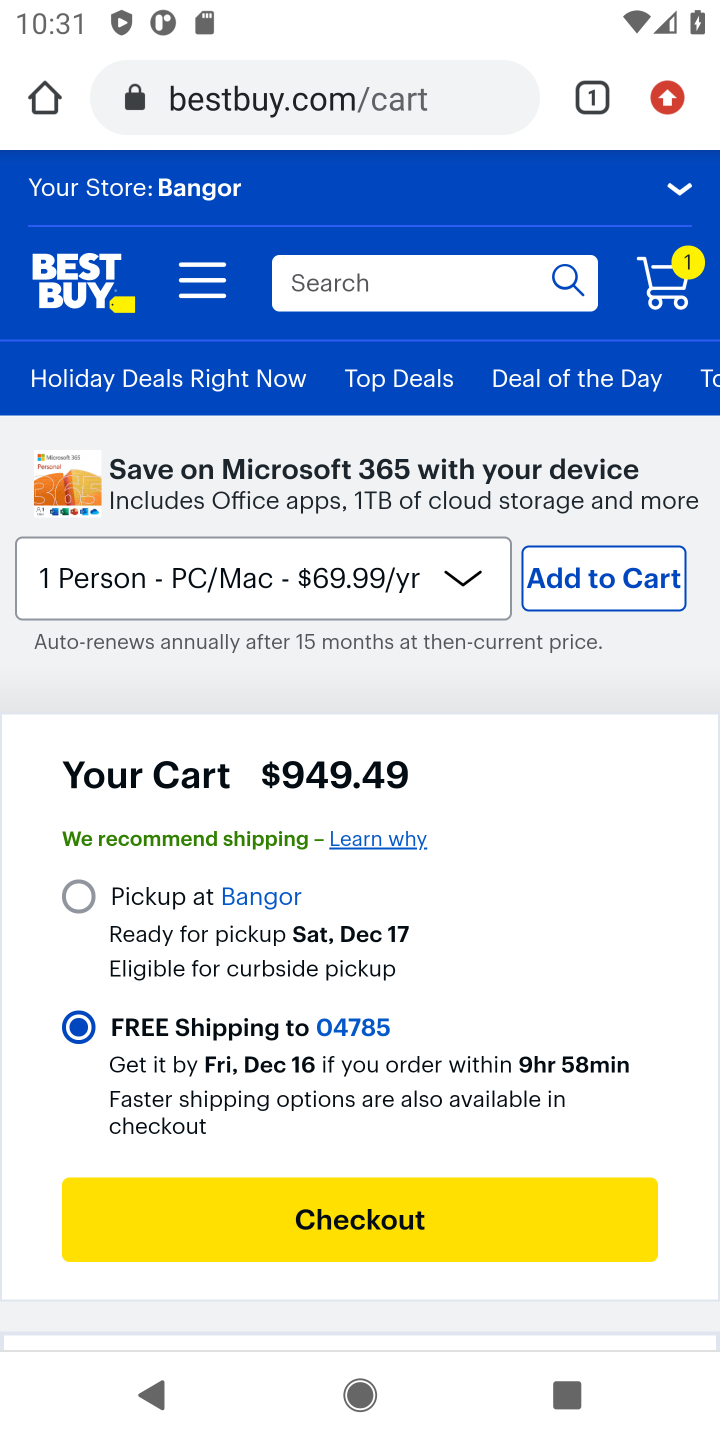
Step 31: click (346, 1214)
Your task to perform on an android device: Empty the shopping cart on bestbuy. Search for "macbook pro 15 inch" on bestbuy, select the first entry, add it to the cart, then select checkout. Image 32: 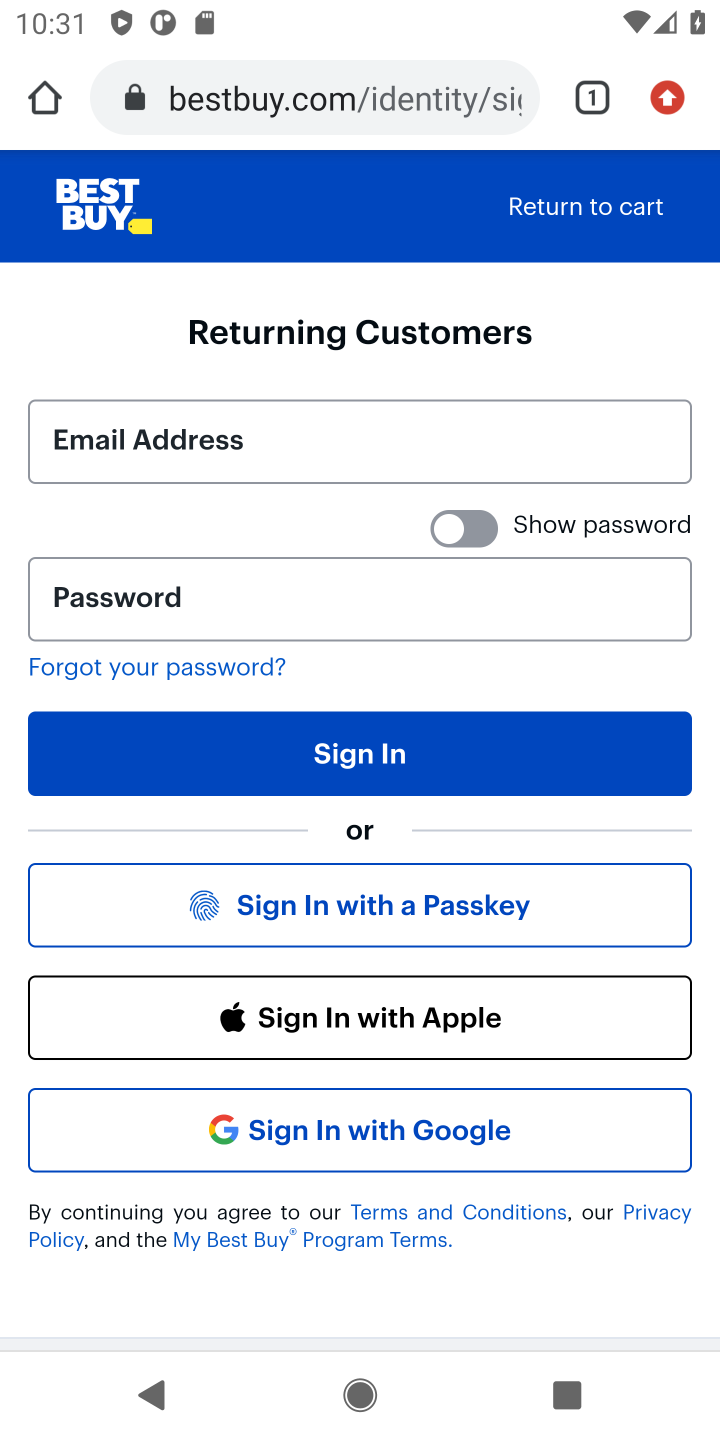
Step 32: task complete